Your task to perform on an android device: View the shopping cart on target. Add jbl charge 4 to the cart on target Image 0: 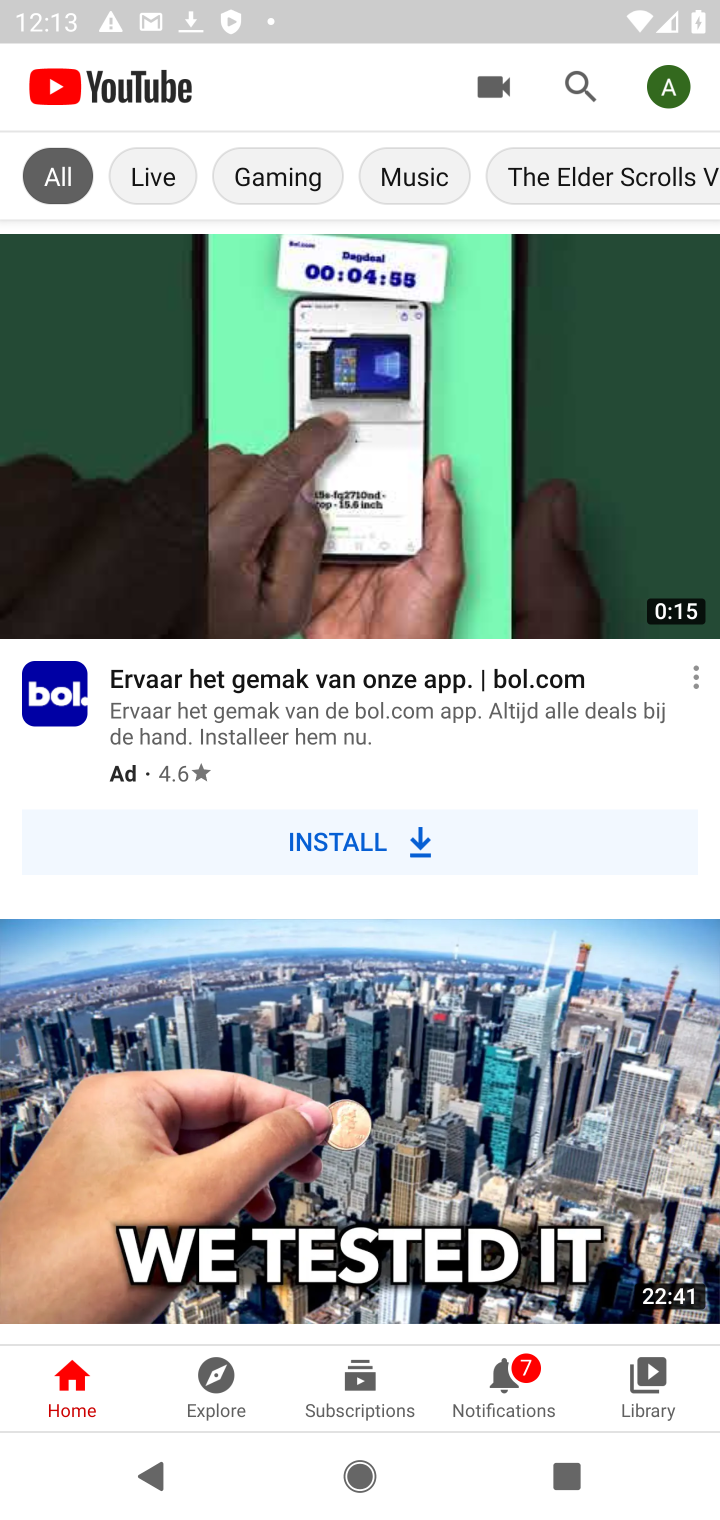
Step 0: press home button
Your task to perform on an android device: View the shopping cart on target. Add jbl charge 4 to the cart on target Image 1: 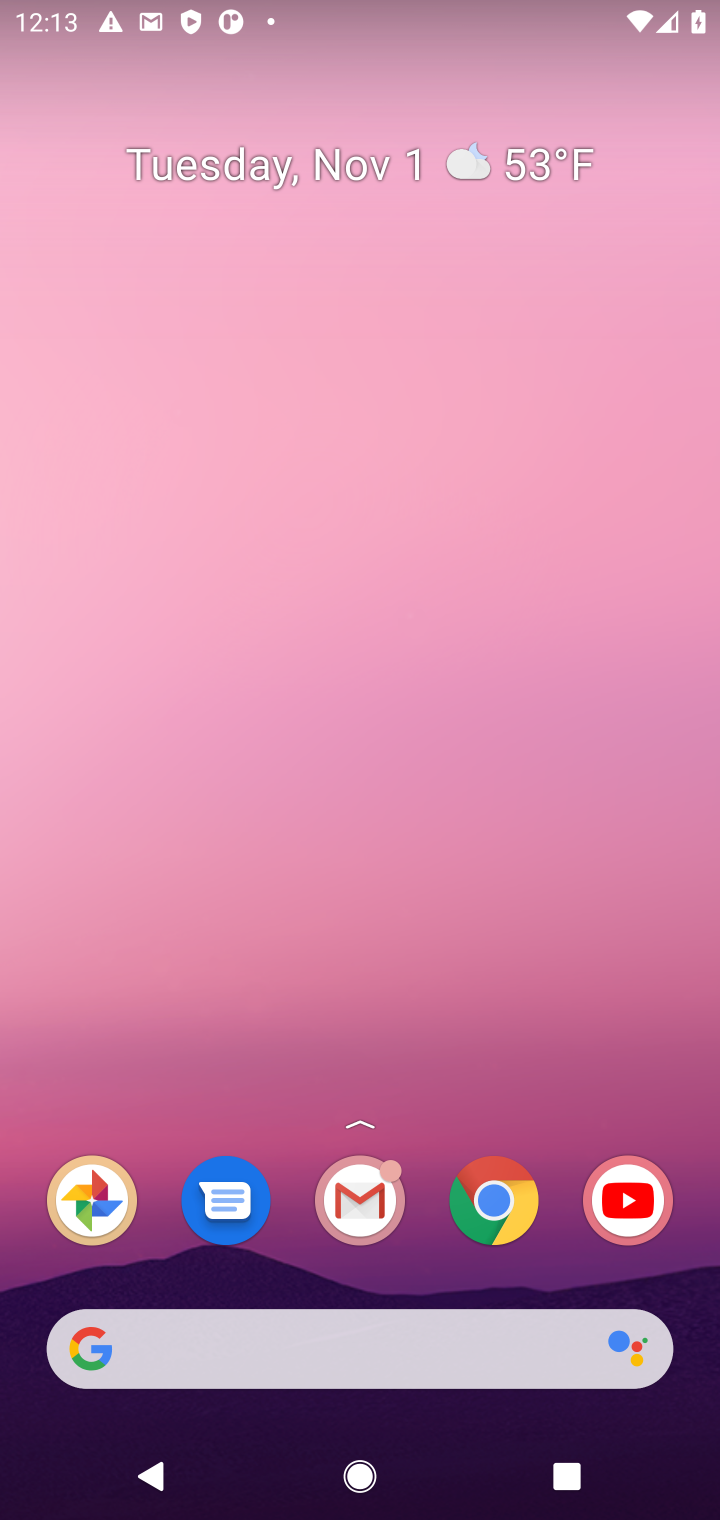
Step 1: click (486, 1195)
Your task to perform on an android device: View the shopping cart on target. Add jbl charge 4 to the cart on target Image 2: 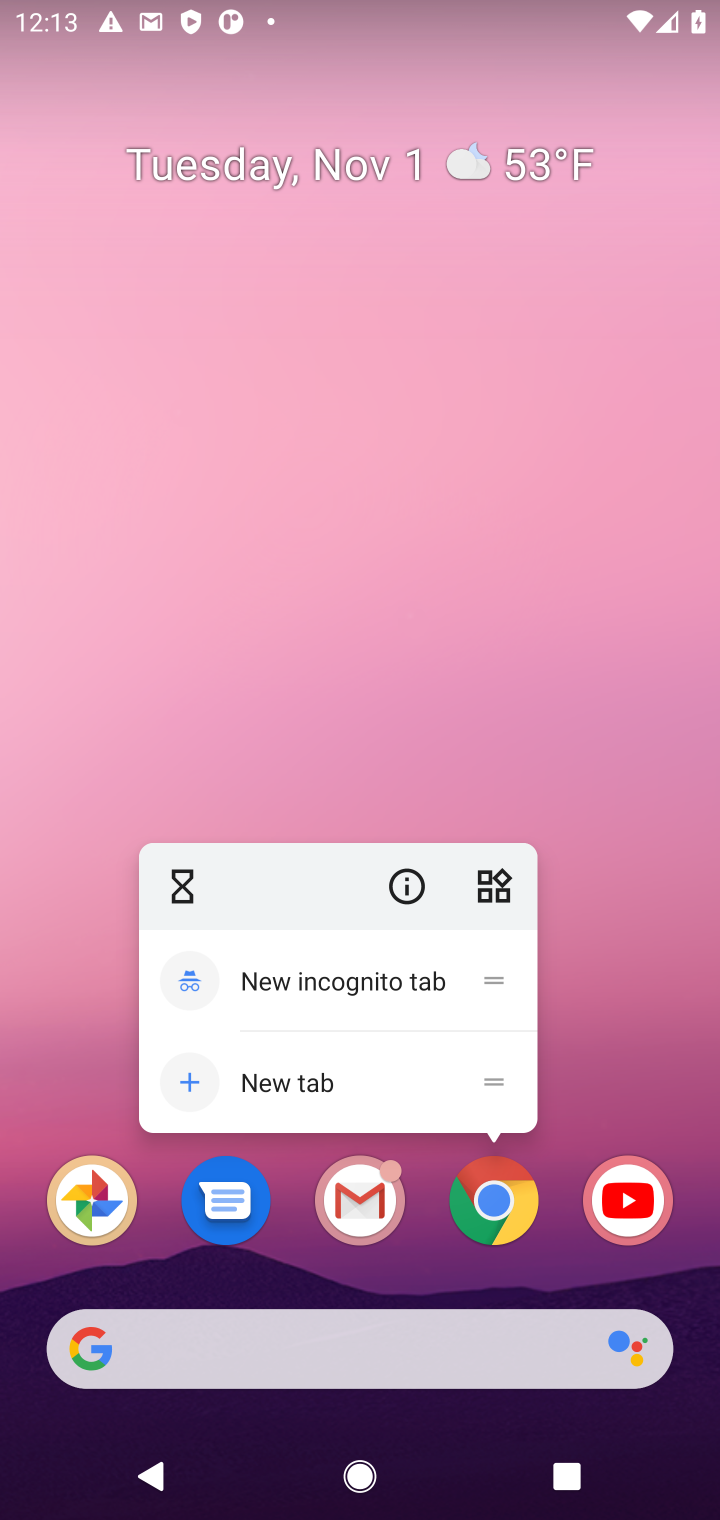
Step 2: click (498, 1238)
Your task to perform on an android device: View the shopping cart on target. Add jbl charge 4 to the cart on target Image 3: 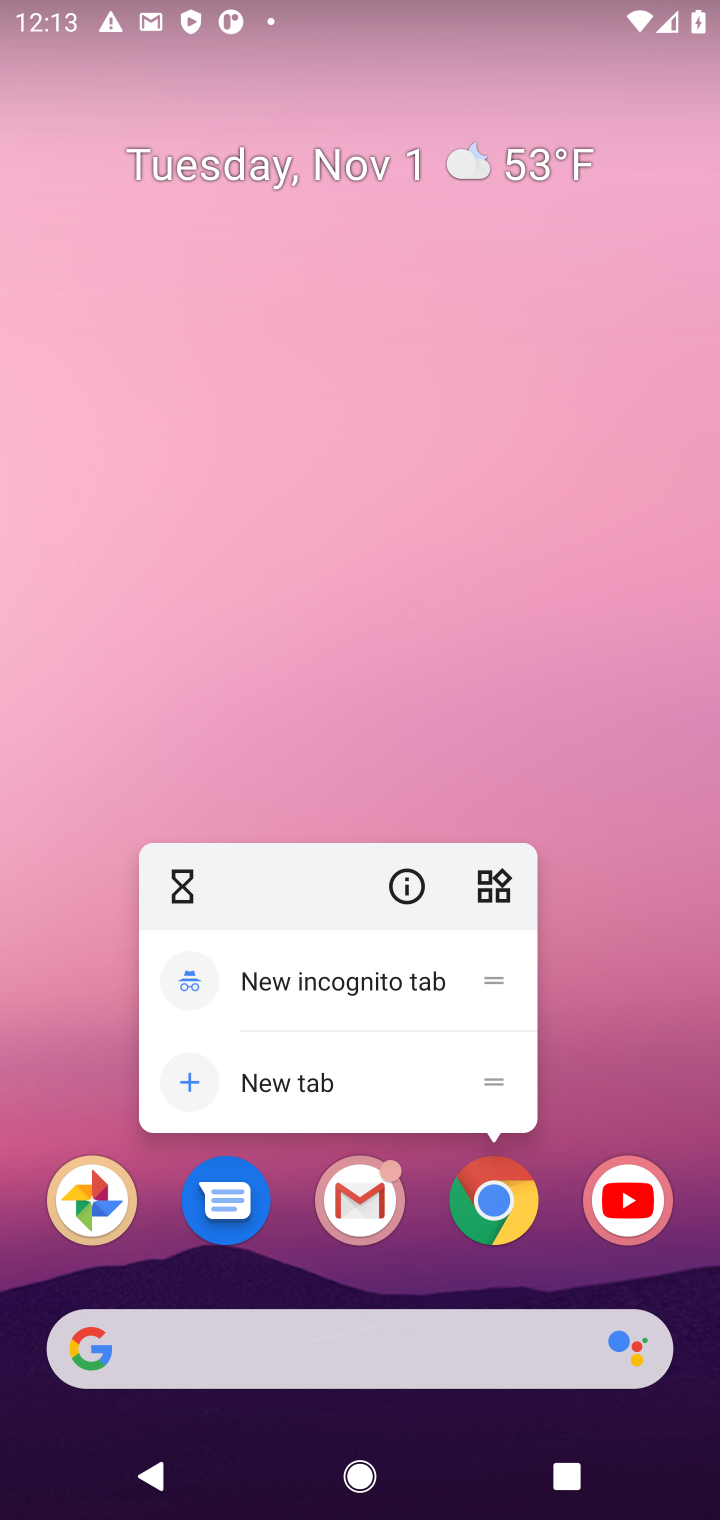
Step 3: click (490, 1200)
Your task to perform on an android device: View the shopping cart on target. Add jbl charge 4 to the cart on target Image 4: 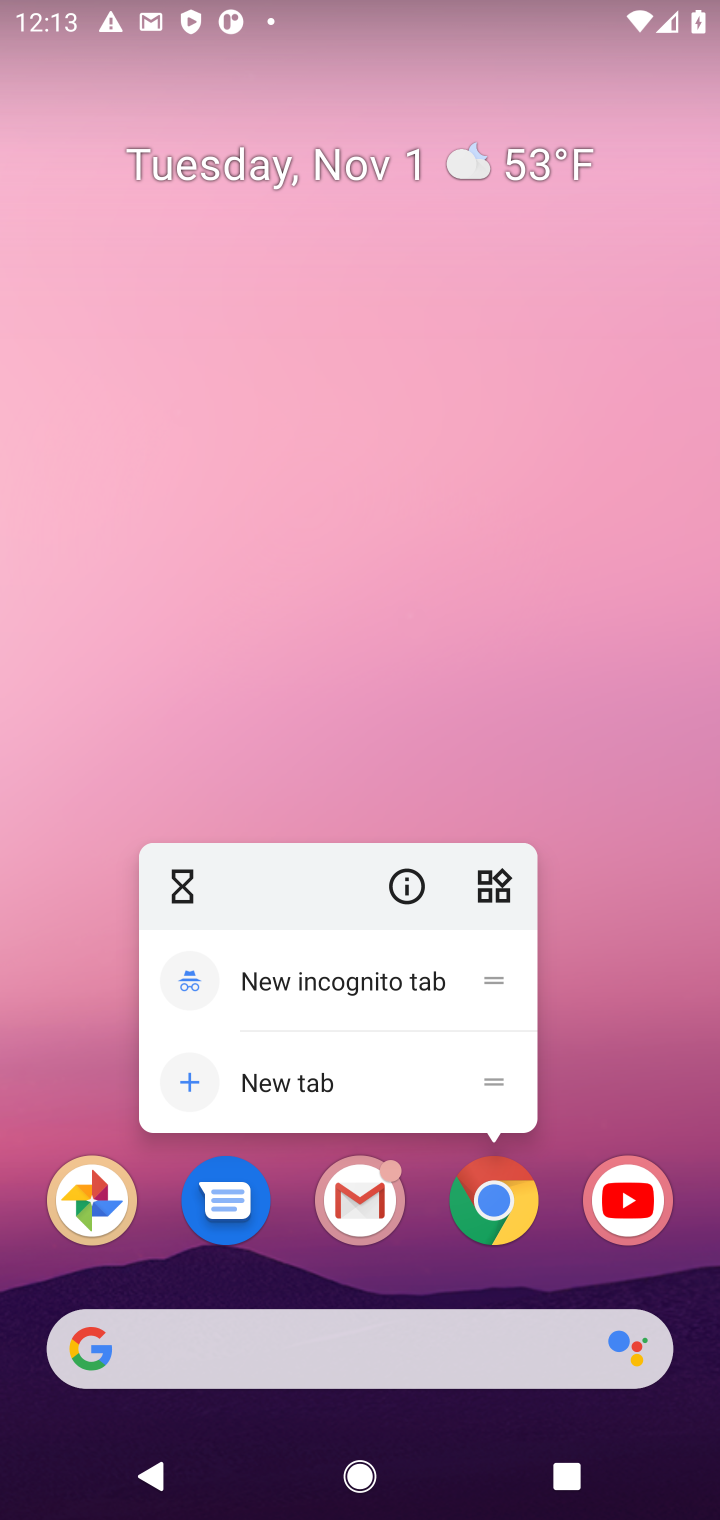
Step 4: click (486, 1231)
Your task to perform on an android device: View the shopping cart on target. Add jbl charge 4 to the cart on target Image 5: 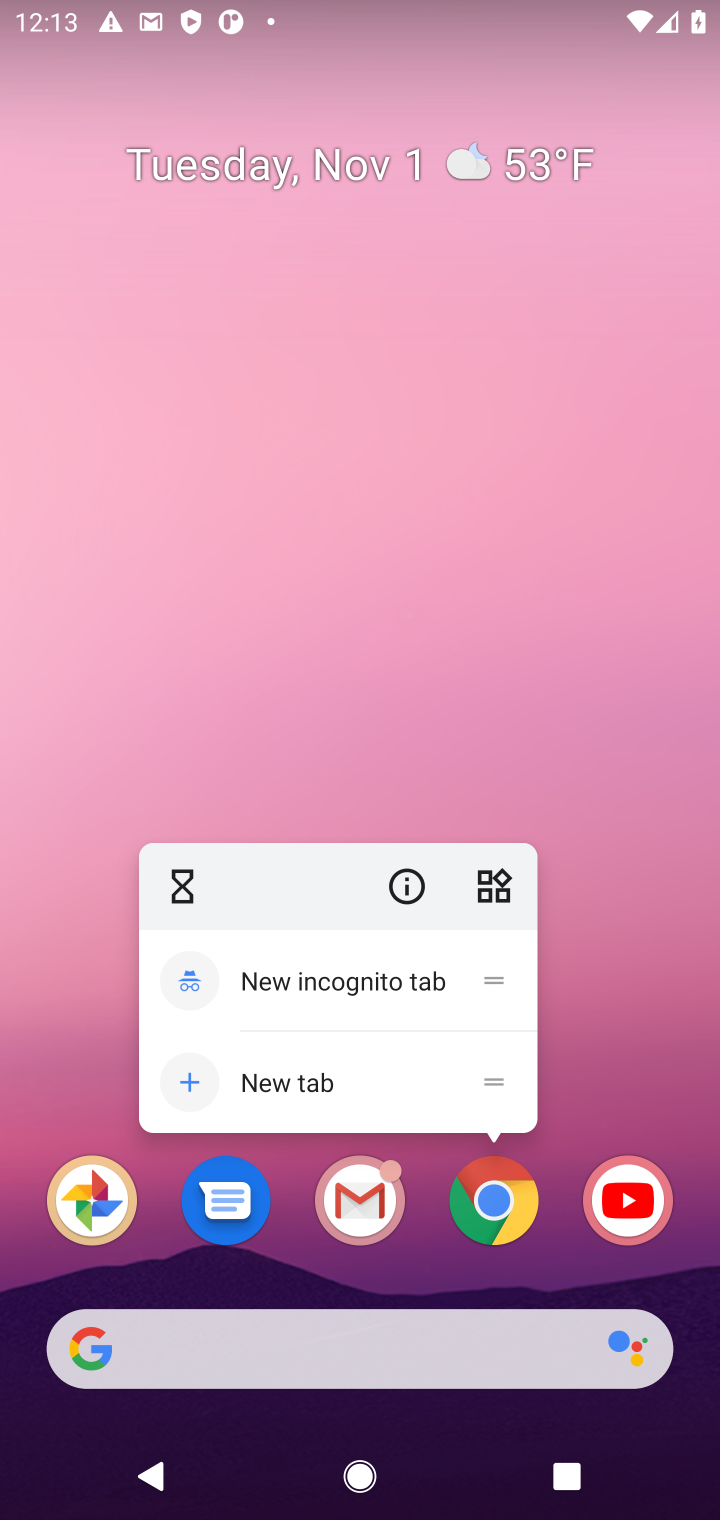
Step 5: click (486, 1231)
Your task to perform on an android device: View the shopping cart on target. Add jbl charge 4 to the cart on target Image 6: 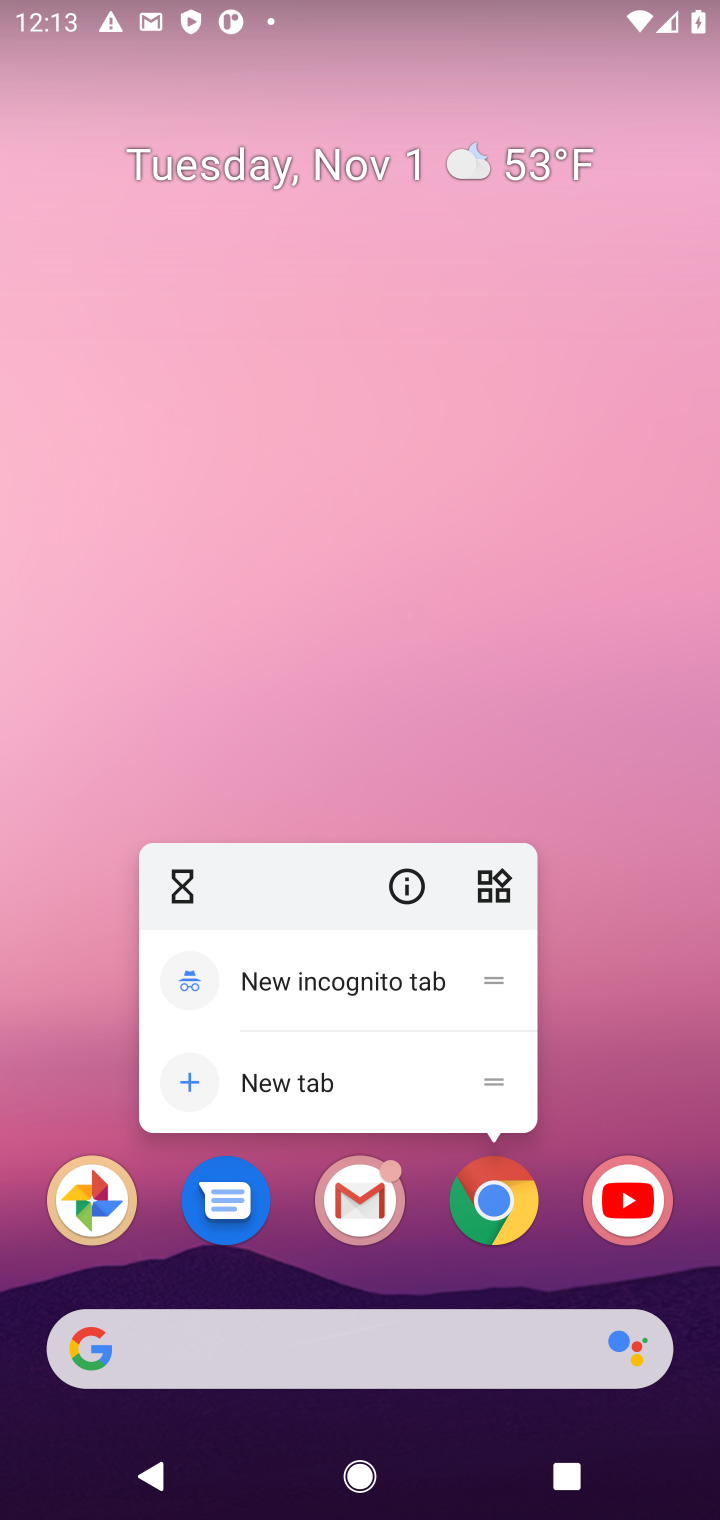
Step 6: click (450, 1199)
Your task to perform on an android device: View the shopping cart on target. Add jbl charge 4 to the cart on target Image 7: 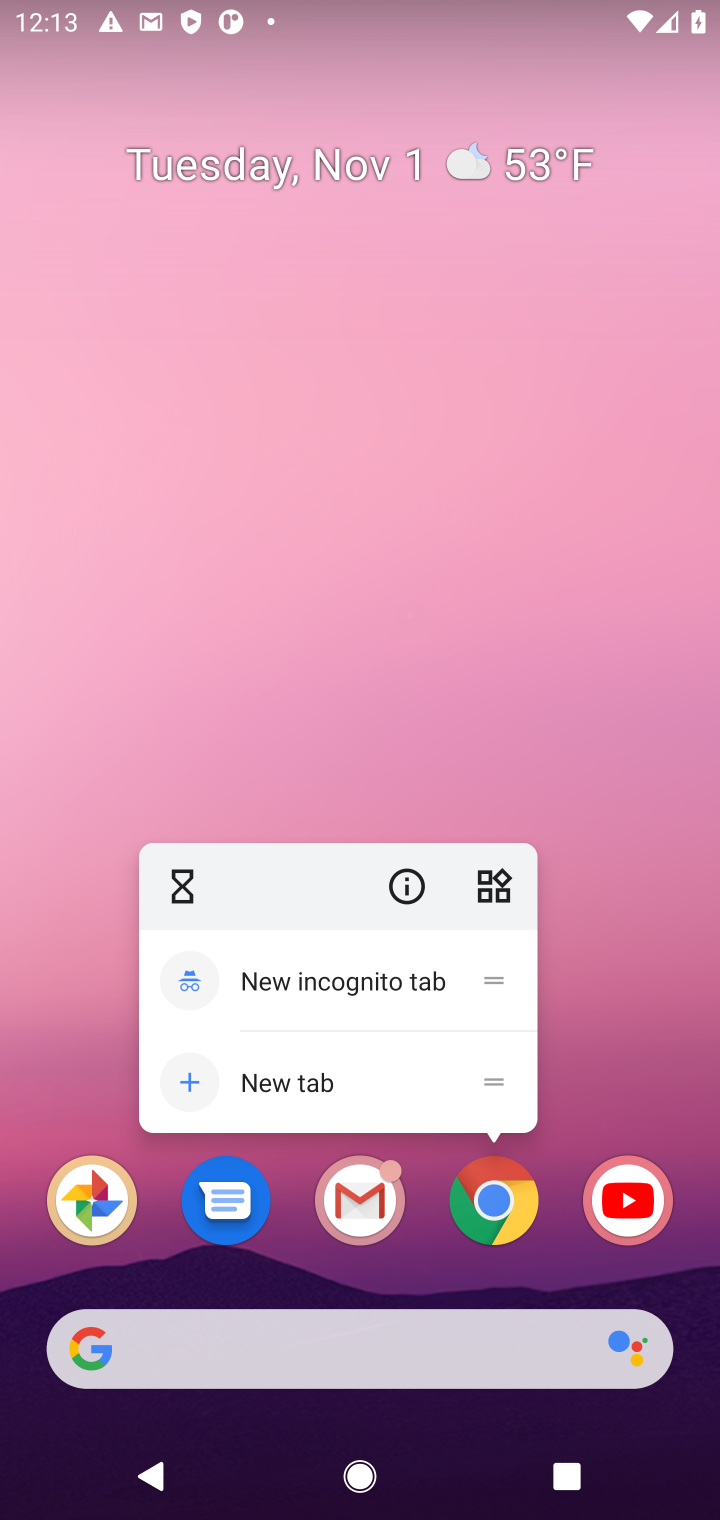
Step 7: click (501, 1197)
Your task to perform on an android device: View the shopping cart on target. Add jbl charge 4 to the cart on target Image 8: 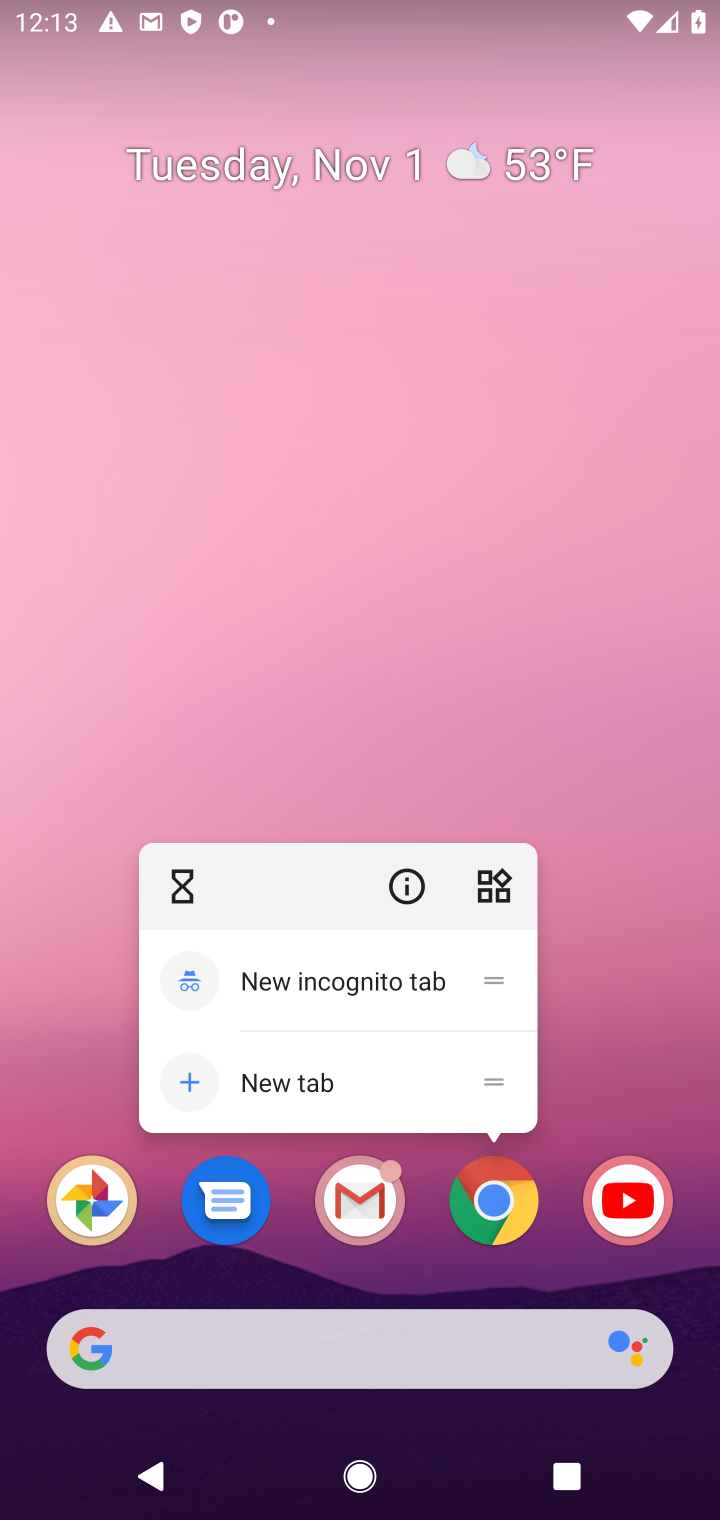
Step 8: click (493, 1217)
Your task to perform on an android device: View the shopping cart on target. Add jbl charge 4 to the cart on target Image 9: 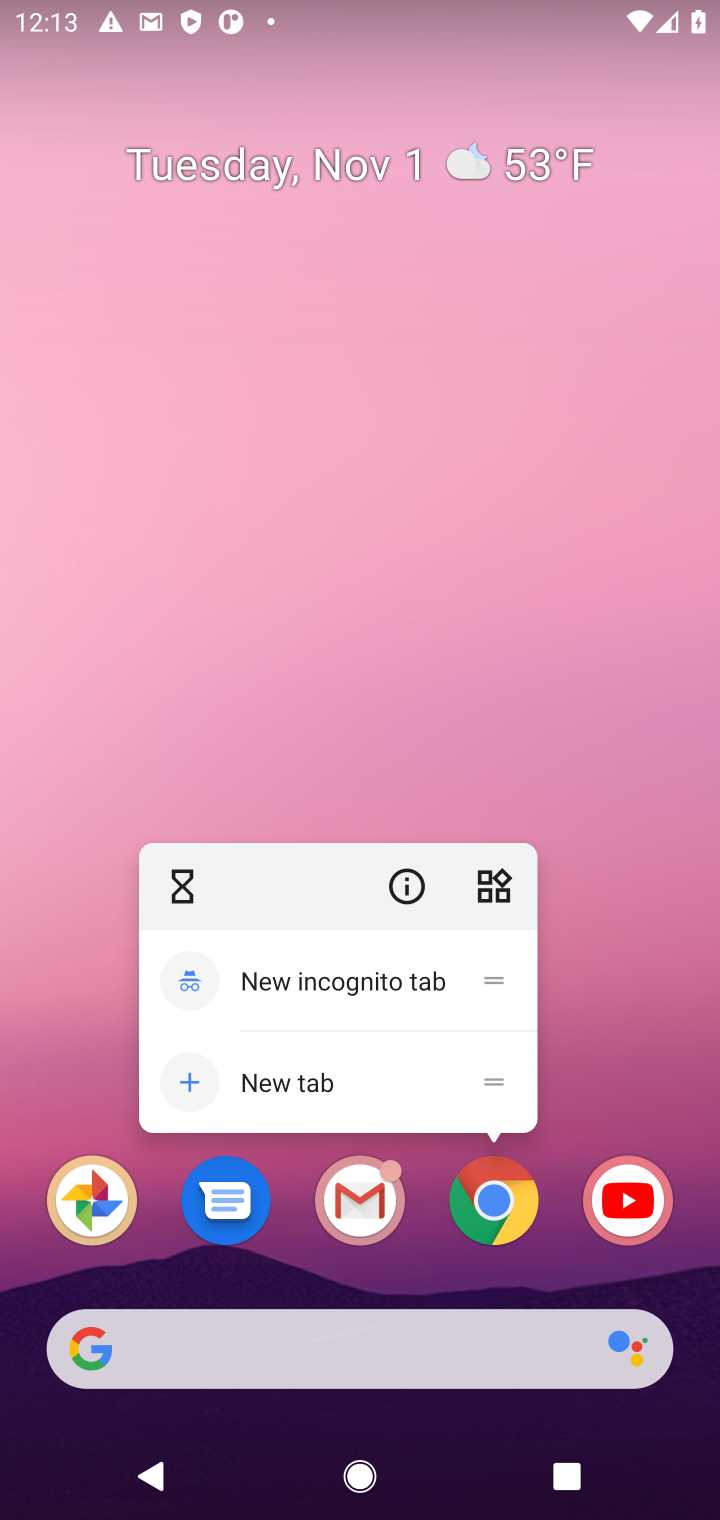
Step 9: click (483, 1245)
Your task to perform on an android device: View the shopping cart on target. Add jbl charge 4 to the cart on target Image 10: 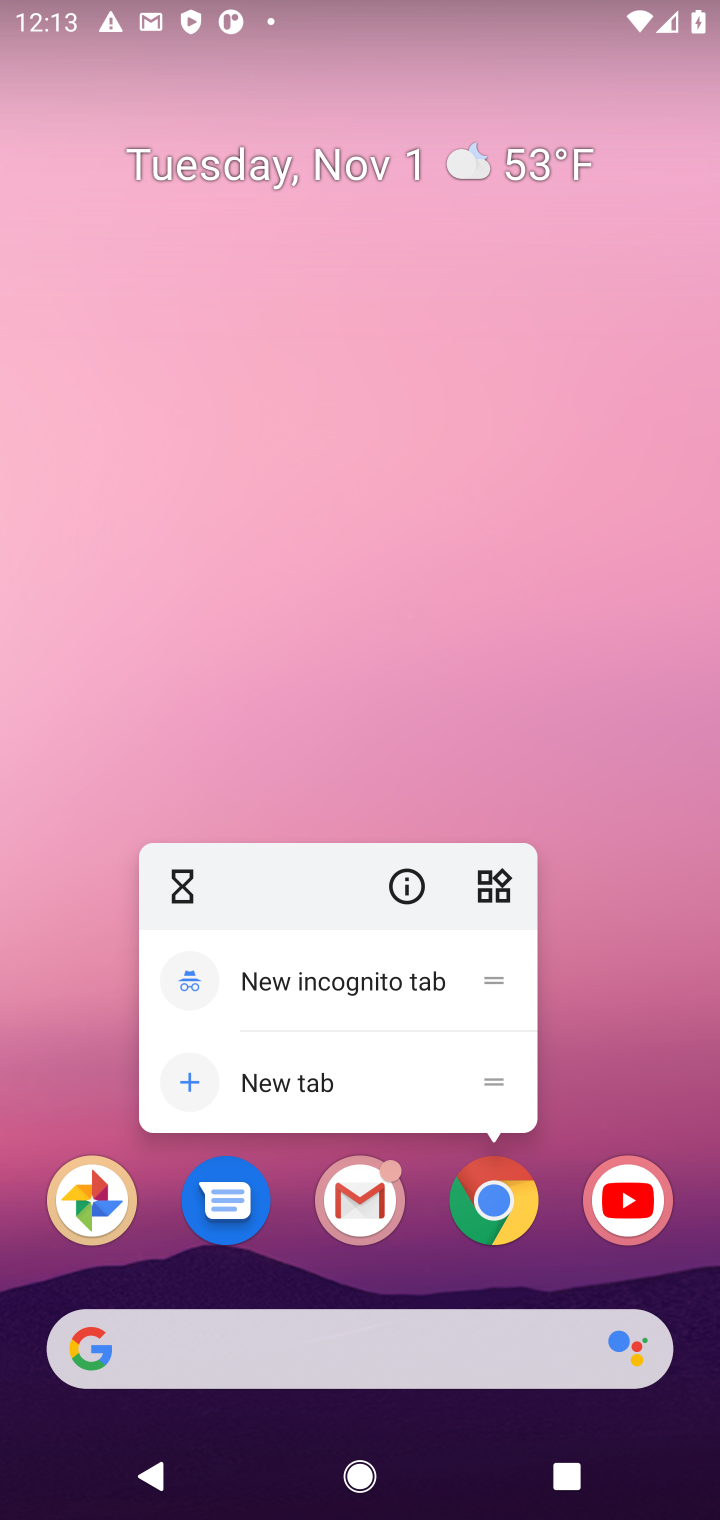
Step 10: click (499, 1236)
Your task to perform on an android device: View the shopping cart on target. Add jbl charge 4 to the cart on target Image 11: 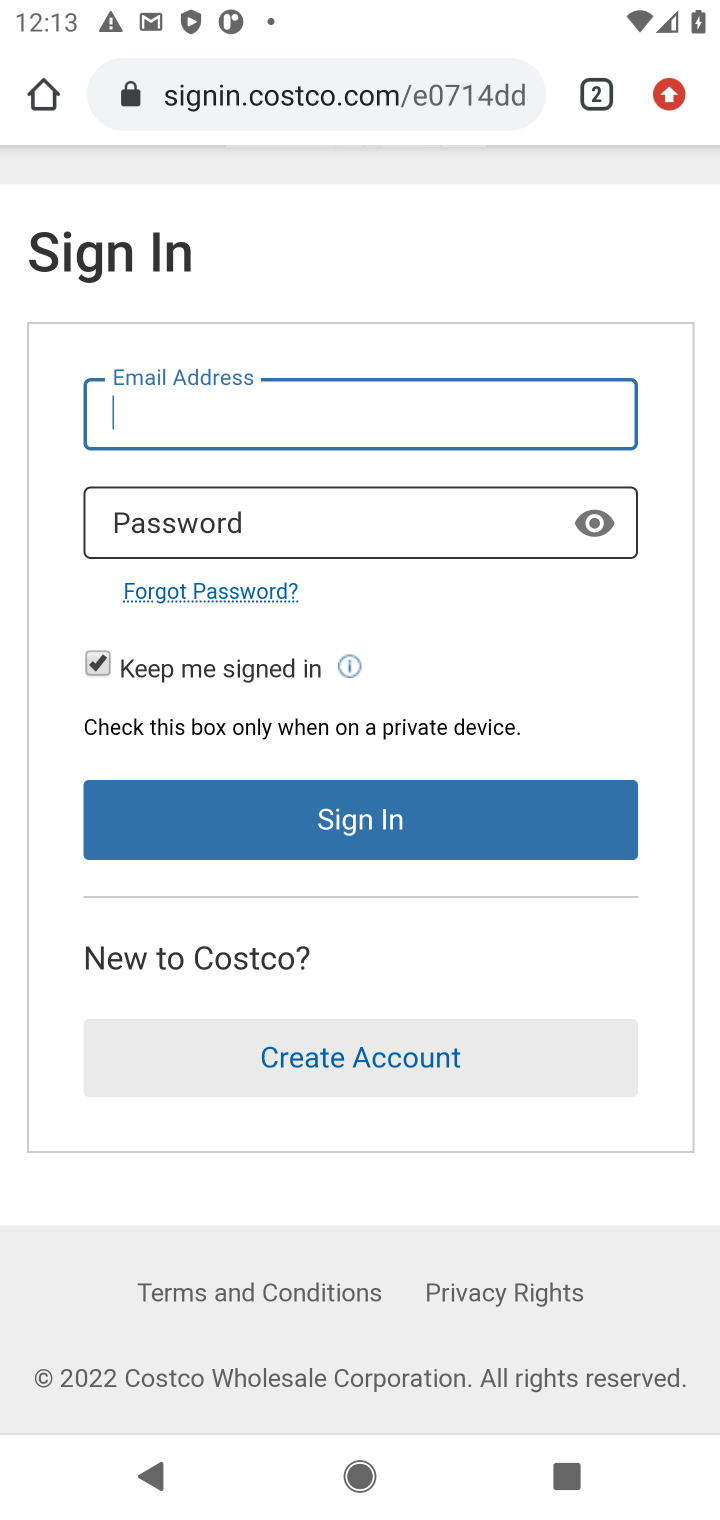
Step 11: click (398, 93)
Your task to perform on an android device: View the shopping cart on target. Add jbl charge 4 to the cart on target Image 12: 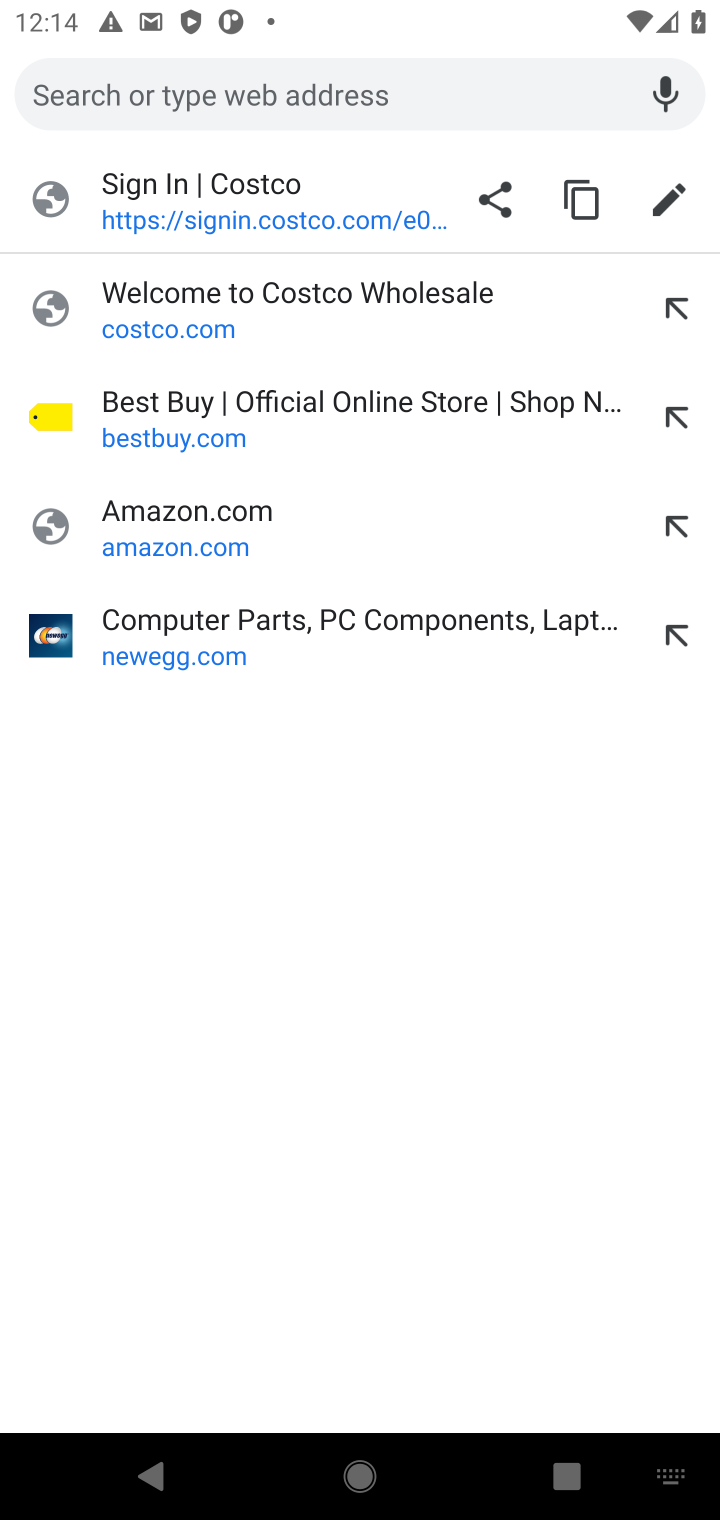
Step 12: type " target"
Your task to perform on an android device: View the shopping cart on target. Add jbl charge 4 to the cart on target Image 13: 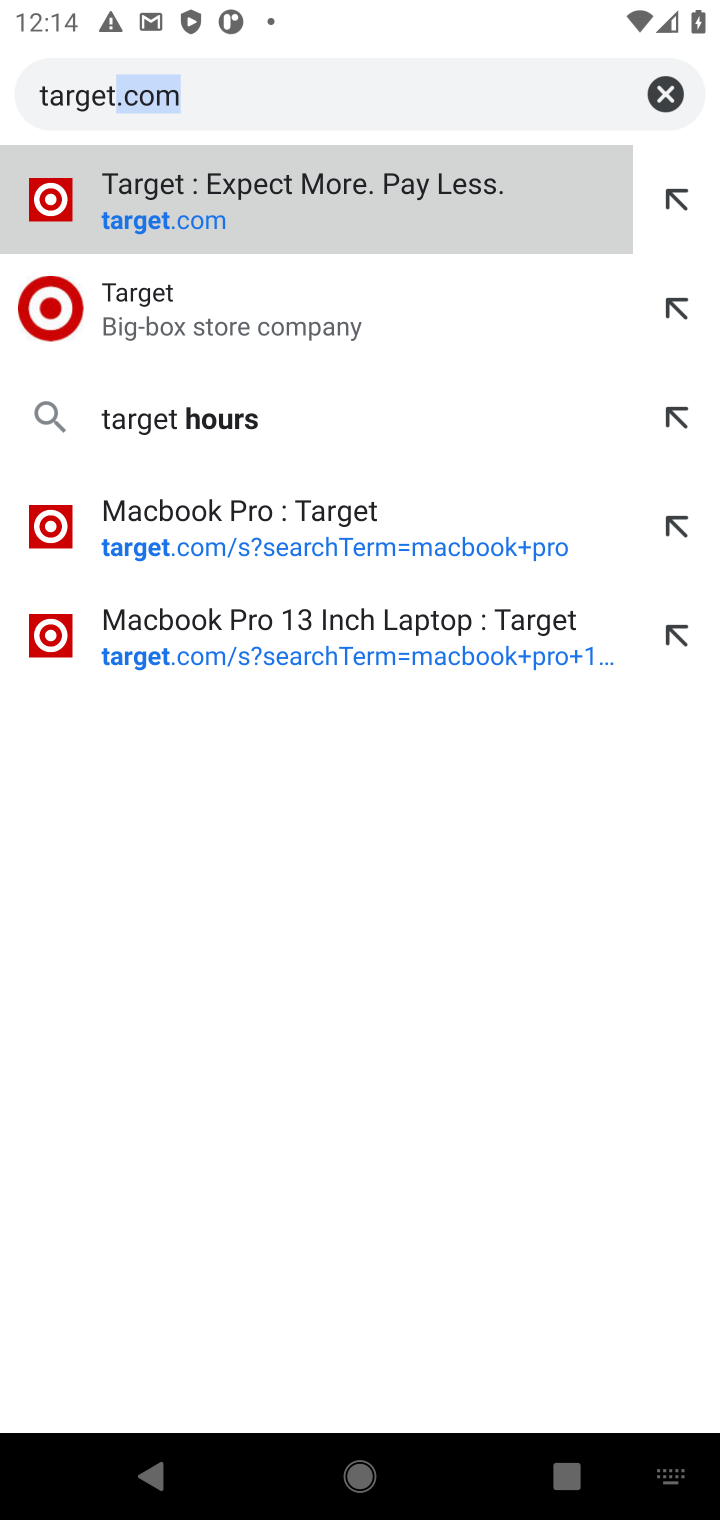
Step 13: type ""
Your task to perform on an android device: View the shopping cart on target. Add jbl charge 4 to the cart on target Image 14: 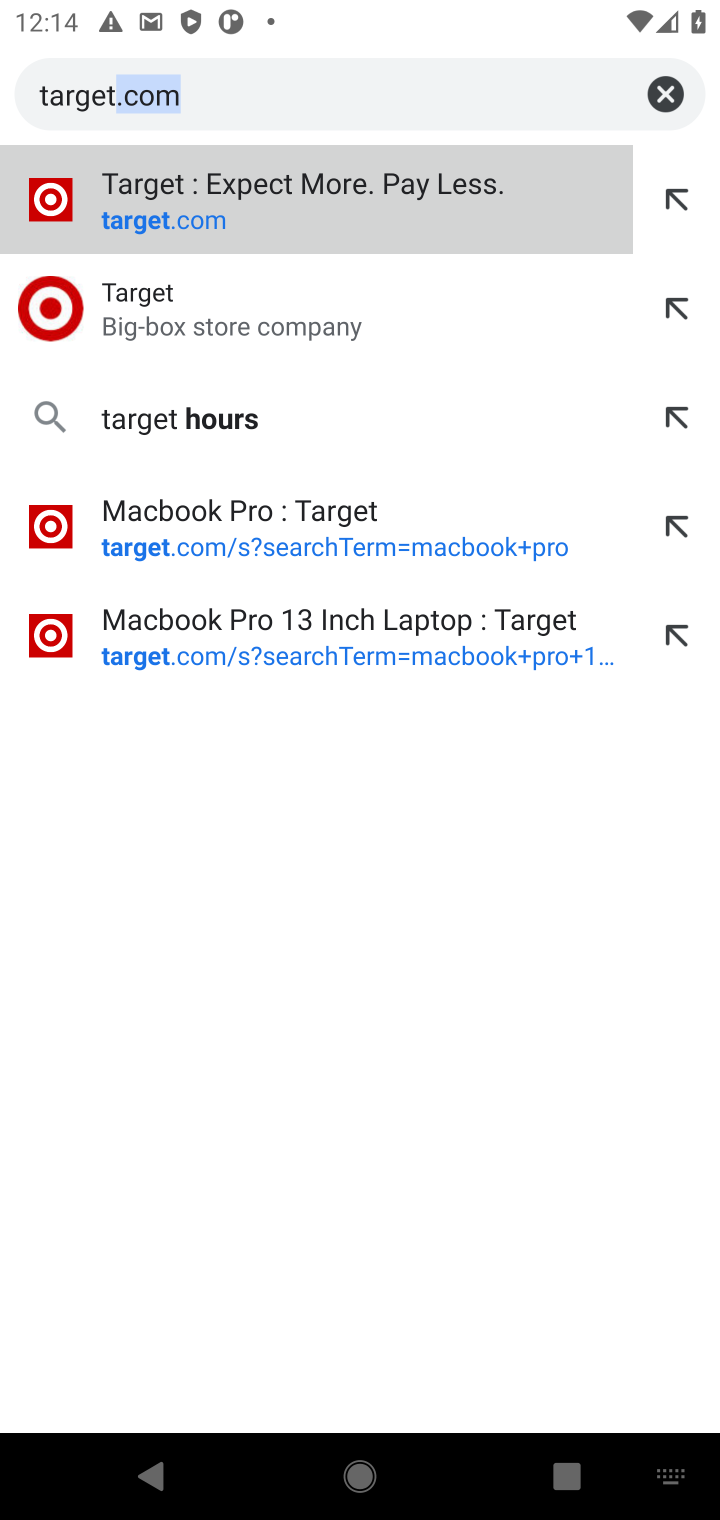
Step 14: click (427, 203)
Your task to perform on an android device: View the shopping cart on target. Add jbl charge 4 to the cart on target Image 15: 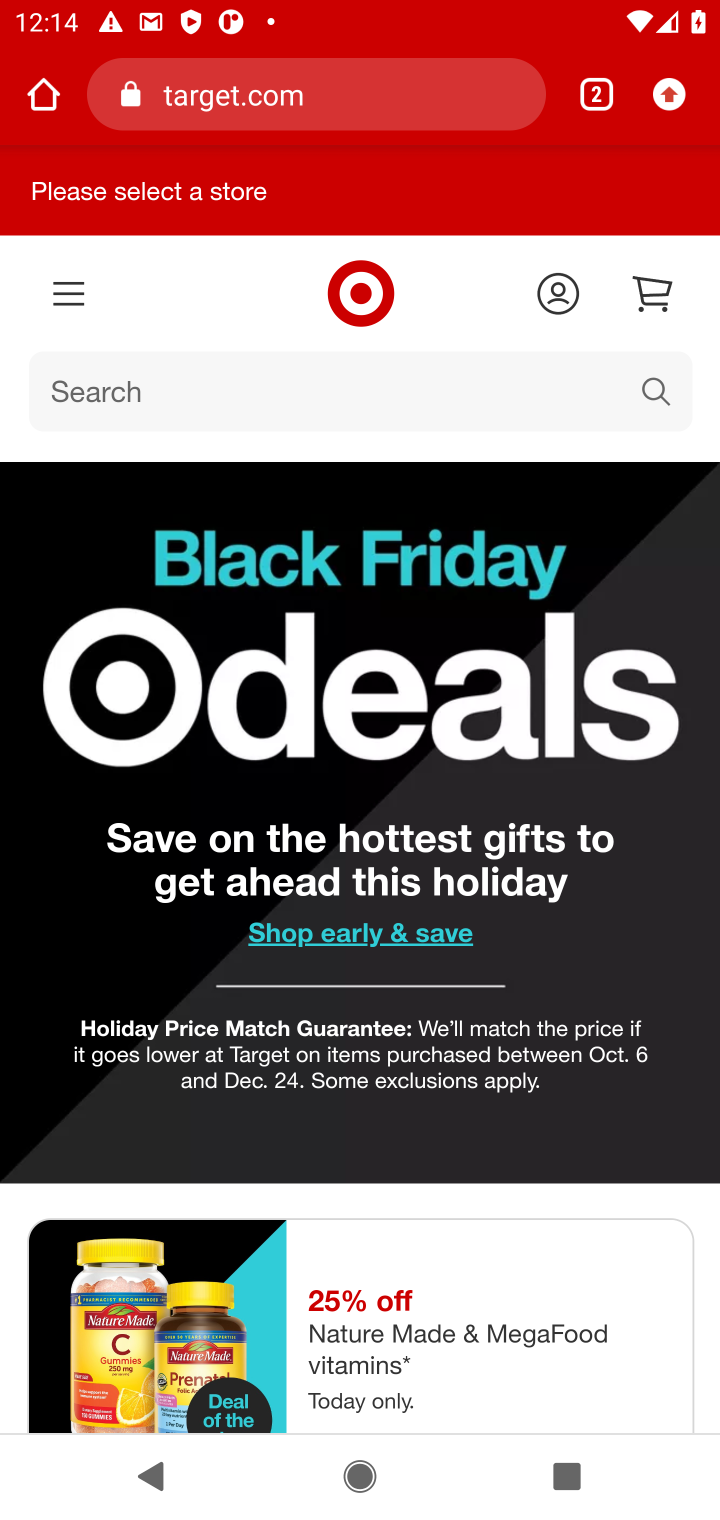
Step 15: click (449, 349)
Your task to perform on an android device: View the shopping cart on target. Add jbl charge 4 to the cart on target Image 16: 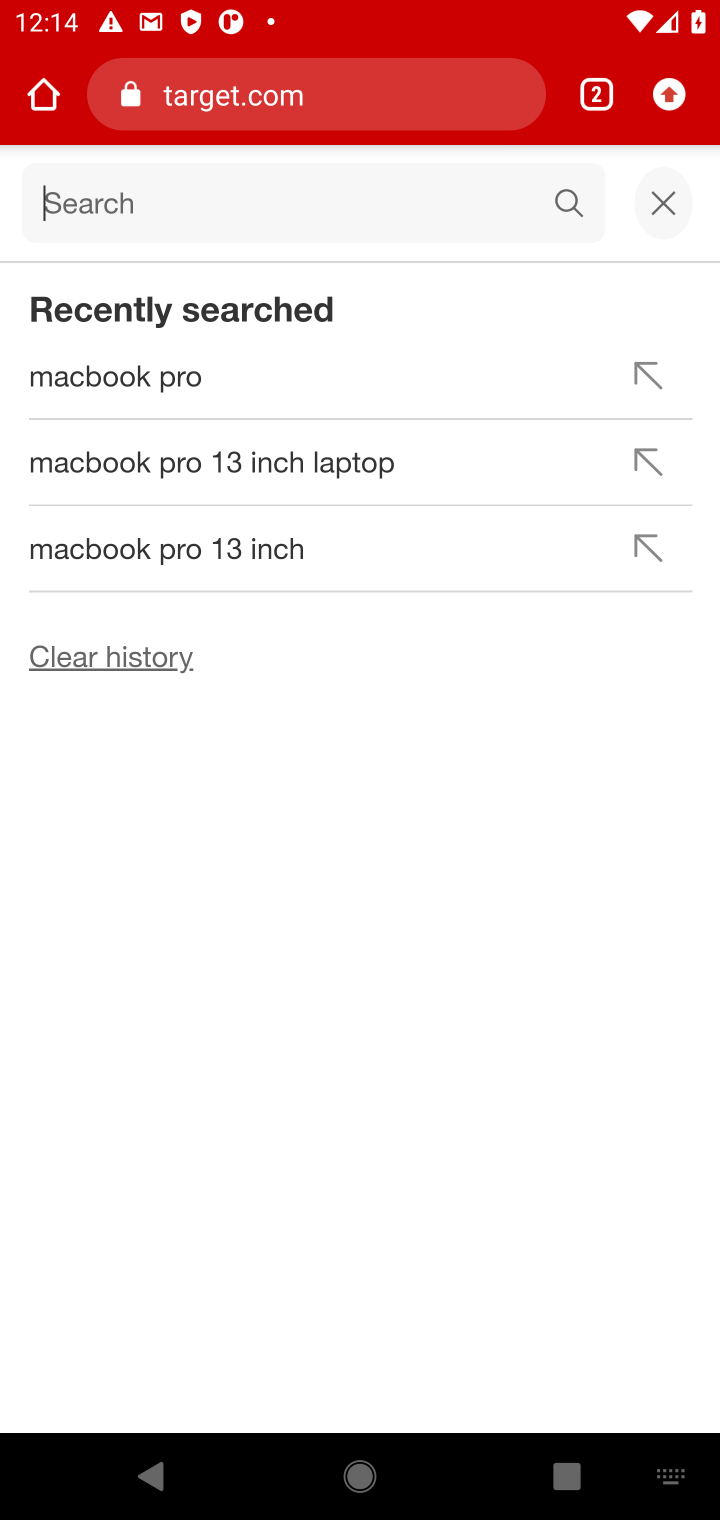
Step 16: type "jbl charge 4"
Your task to perform on an android device: View the shopping cart on target. Add jbl charge 4 to the cart on target Image 17: 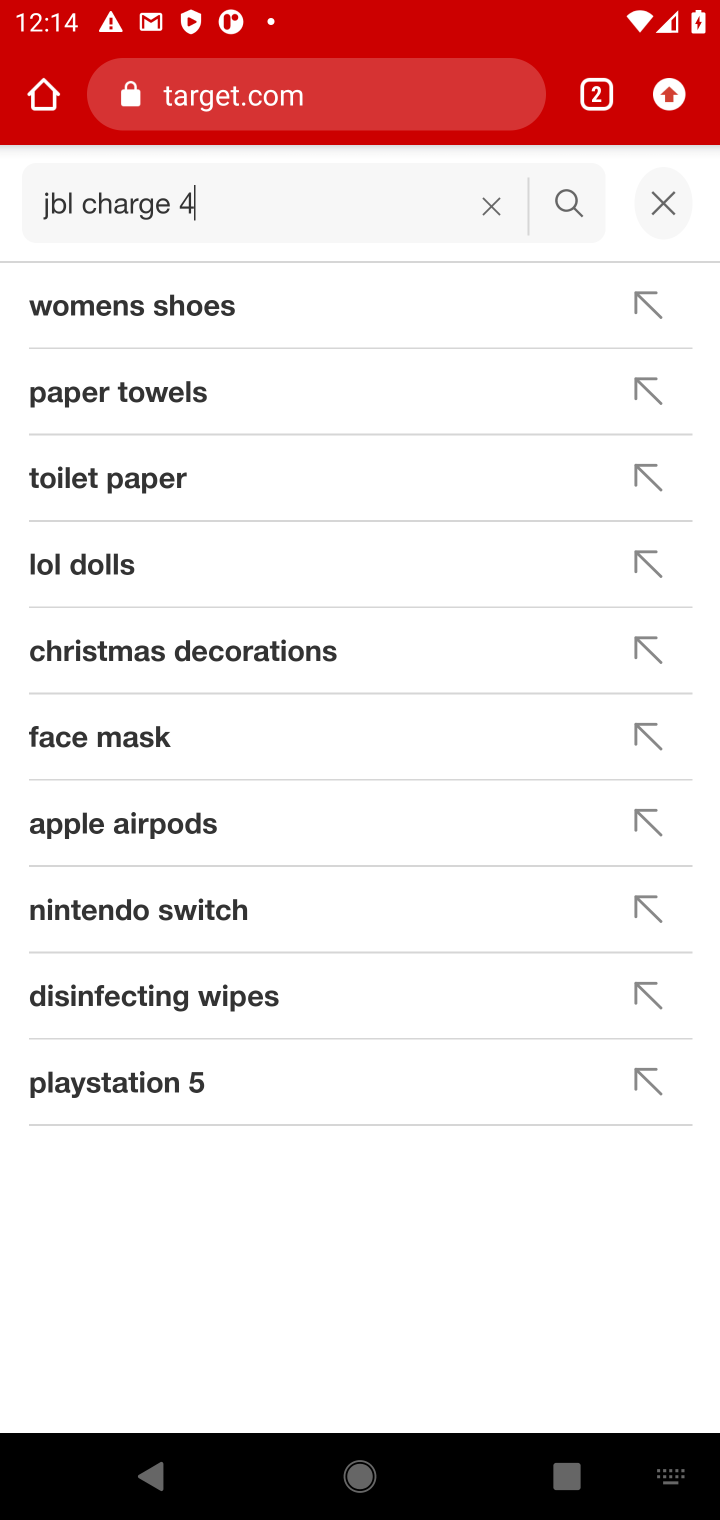
Step 17: type ""
Your task to perform on an android device: View the shopping cart on target. Add jbl charge 4 to the cart on target Image 18: 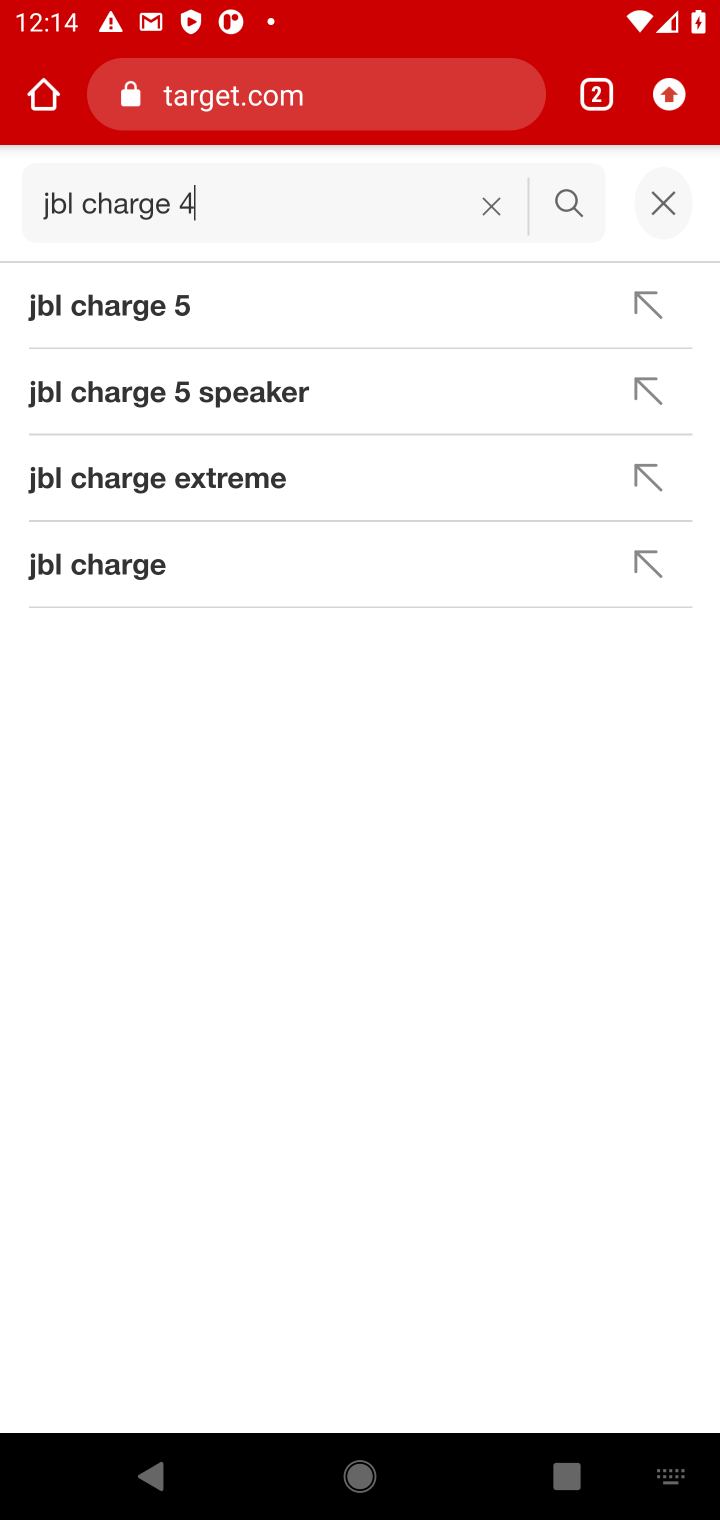
Step 18: press enter
Your task to perform on an android device: View the shopping cart on target. Add jbl charge 4 to the cart on target Image 19: 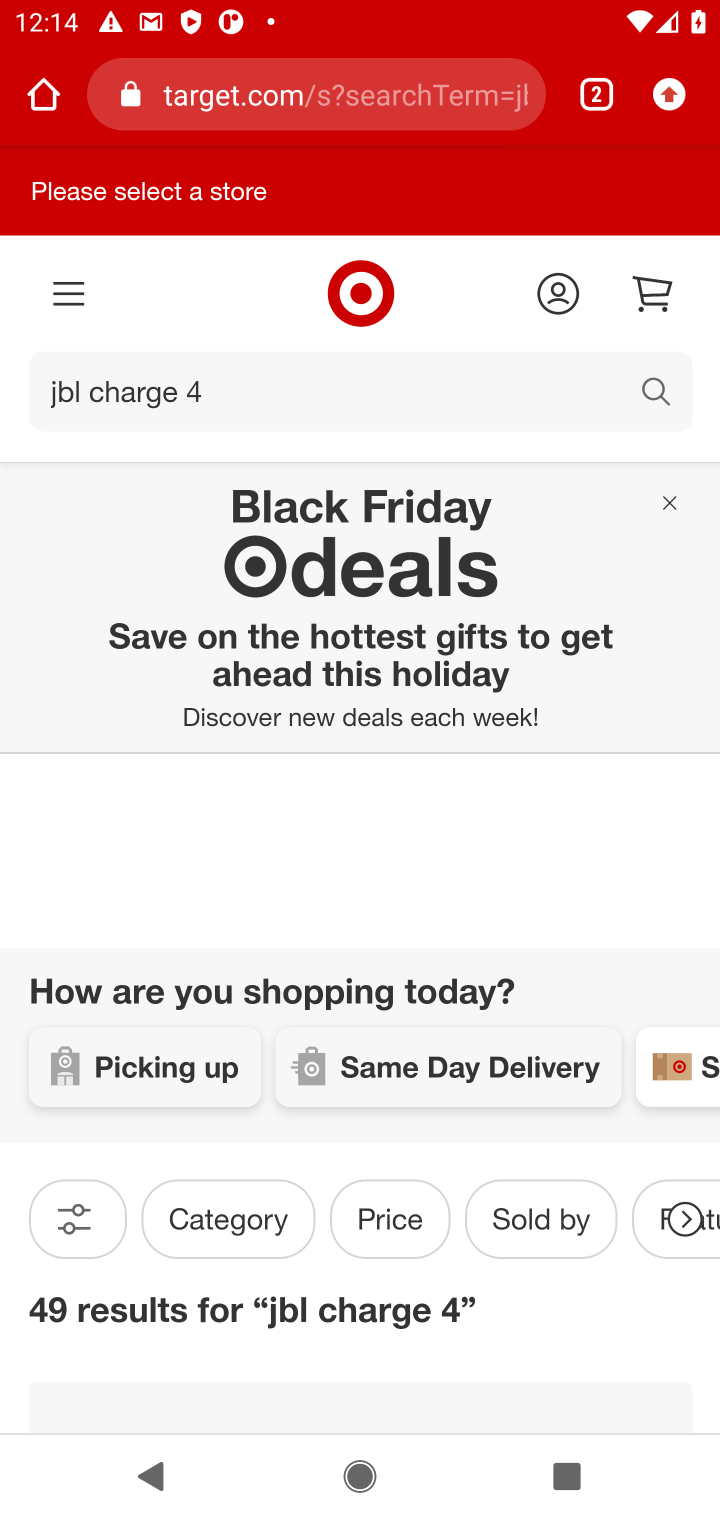
Step 19: click (263, 434)
Your task to perform on an android device: View the shopping cart on target. Add jbl charge 4 to the cart on target Image 20: 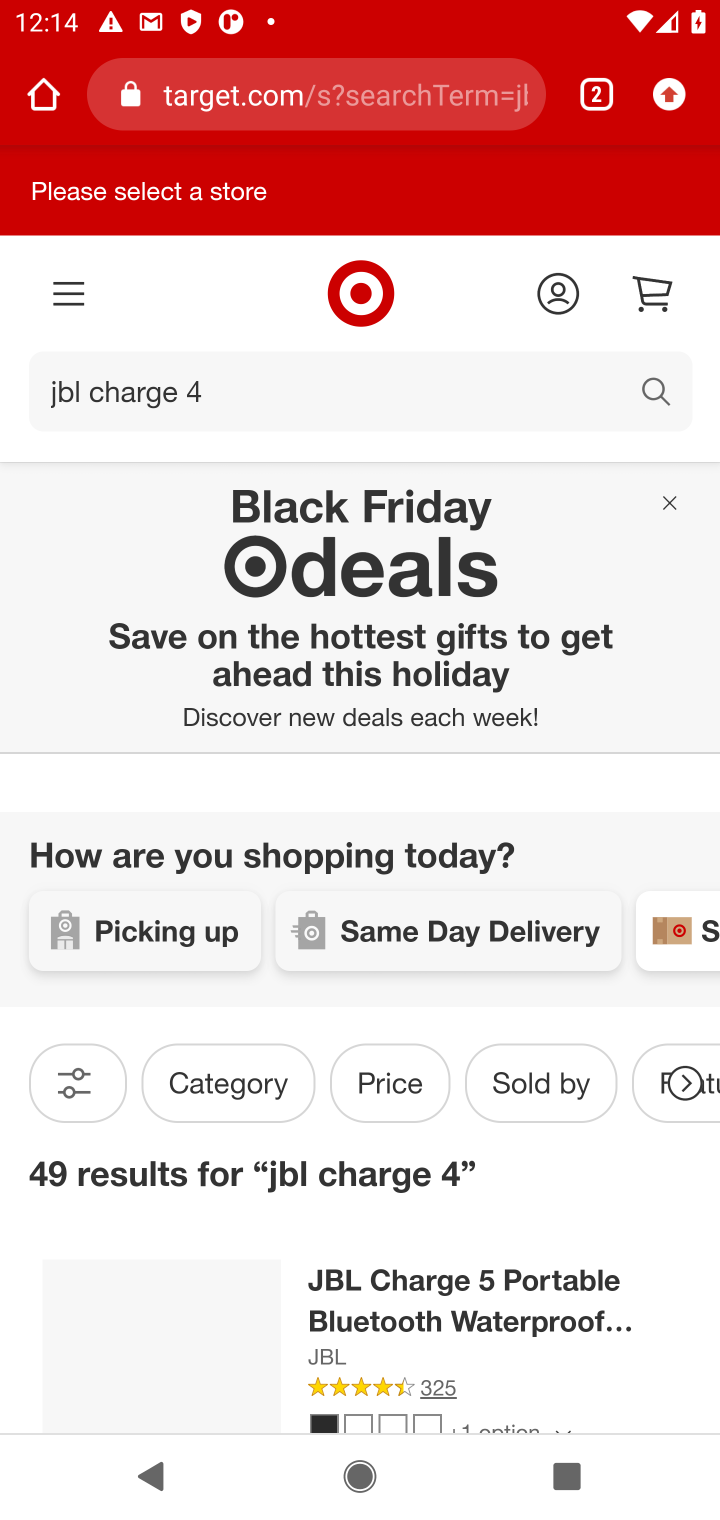
Step 20: drag from (303, 1143) to (356, 614)
Your task to perform on an android device: View the shopping cart on target. Add jbl charge 4 to the cart on target Image 21: 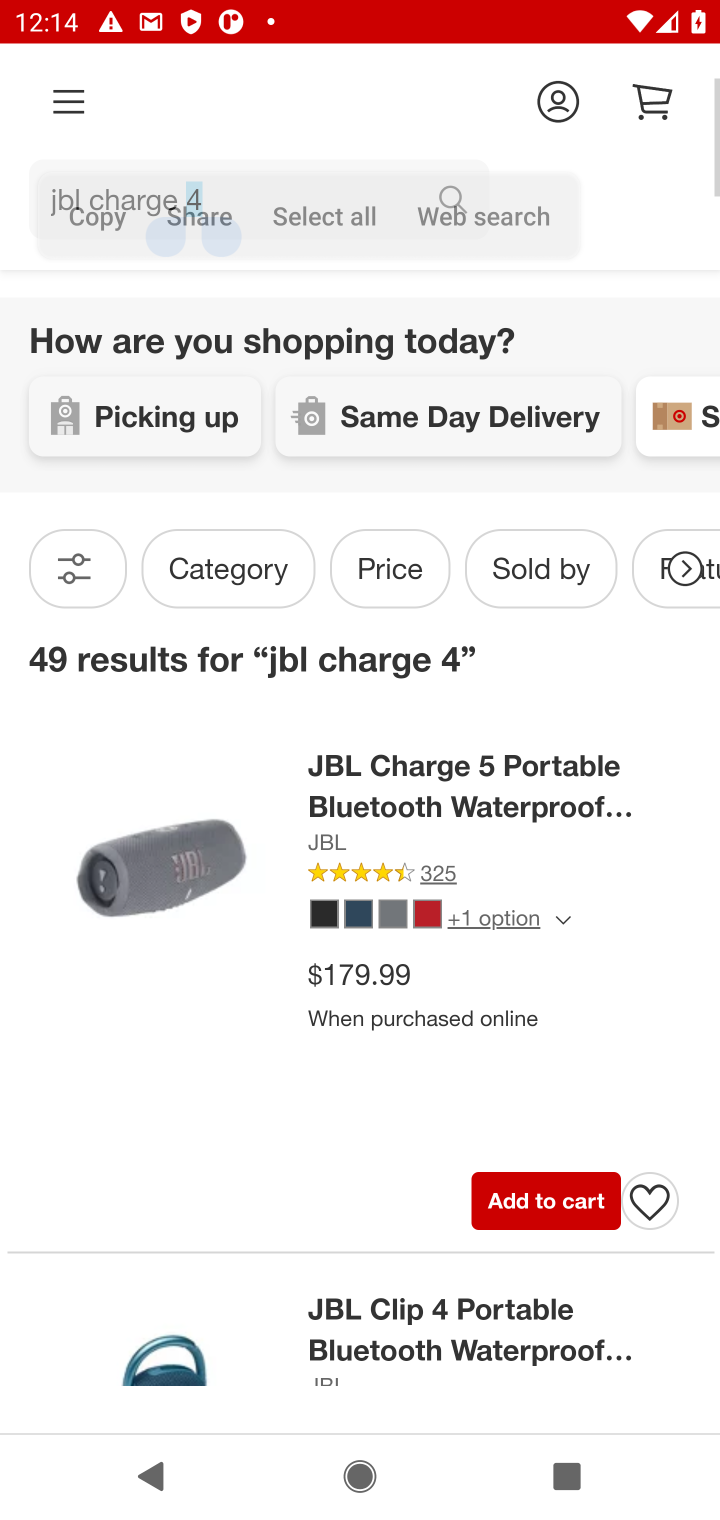
Step 21: drag from (535, 1134) to (520, 699)
Your task to perform on an android device: View the shopping cart on target. Add jbl charge 4 to the cart on target Image 22: 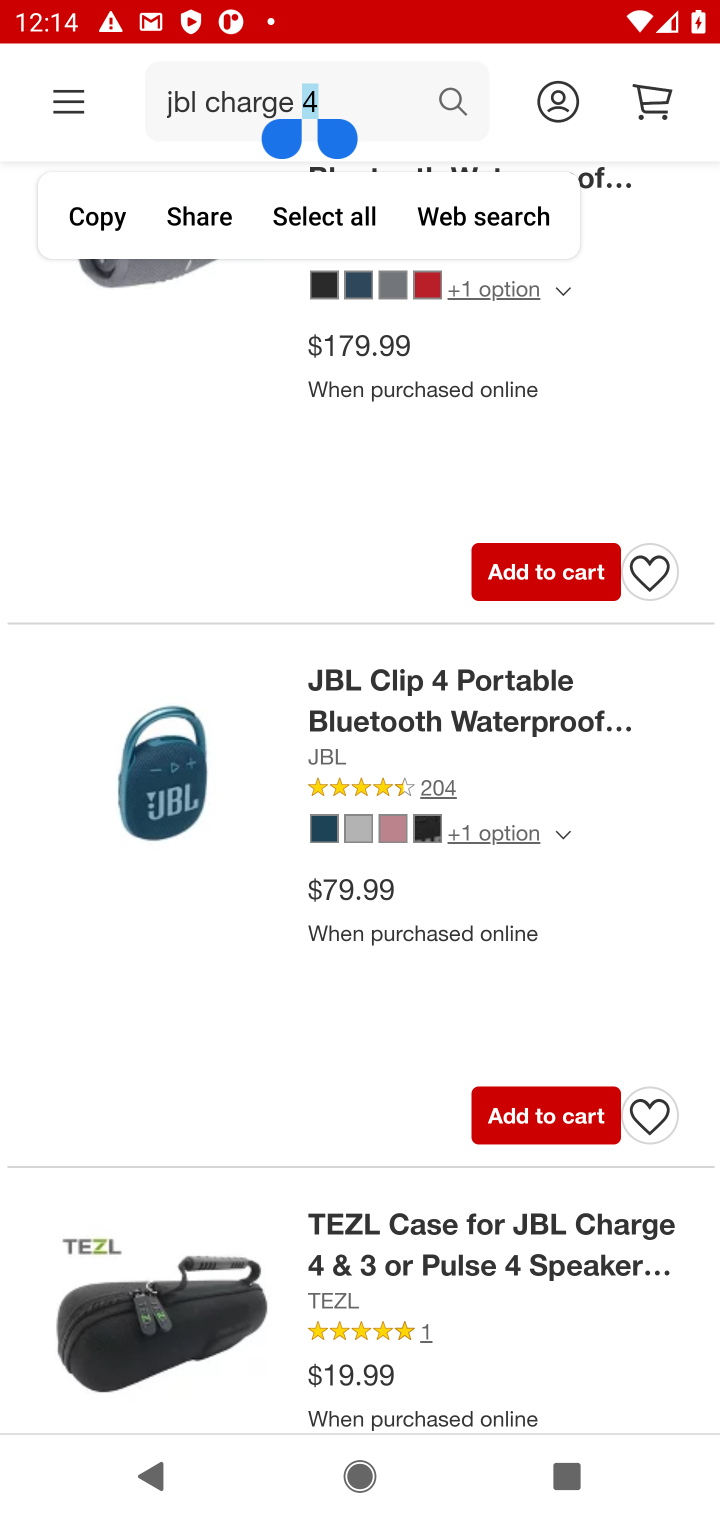
Step 22: drag from (440, 1013) to (418, 659)
Your task to perform on an android device: View the shopping cart on target. Add jbl charge 4 to the cart on target Image 23: 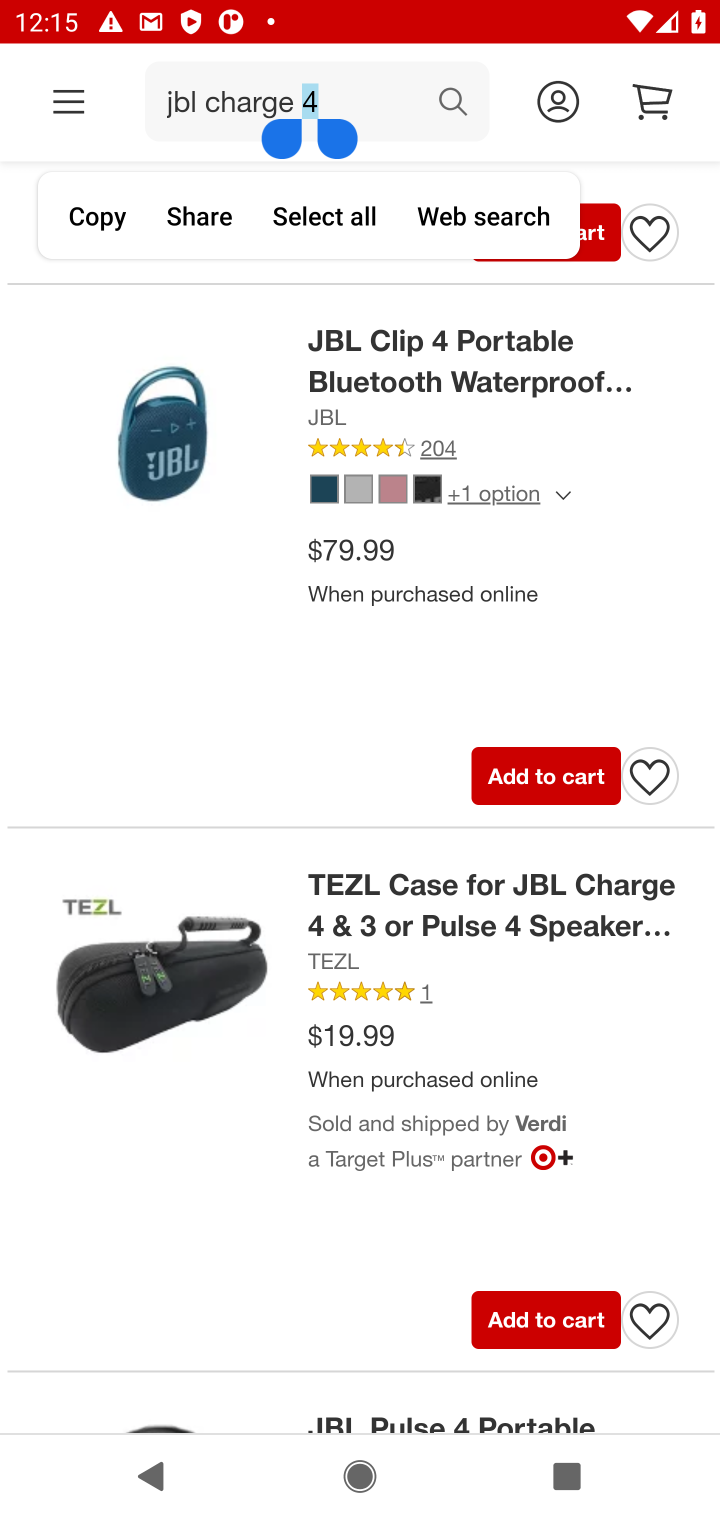
Step 23: drag from (423, 1155) to (441, 633)
Your task to perform on an android device: View the shopping cart on target. Add jbl charge 4 to the cart on target Image 24: 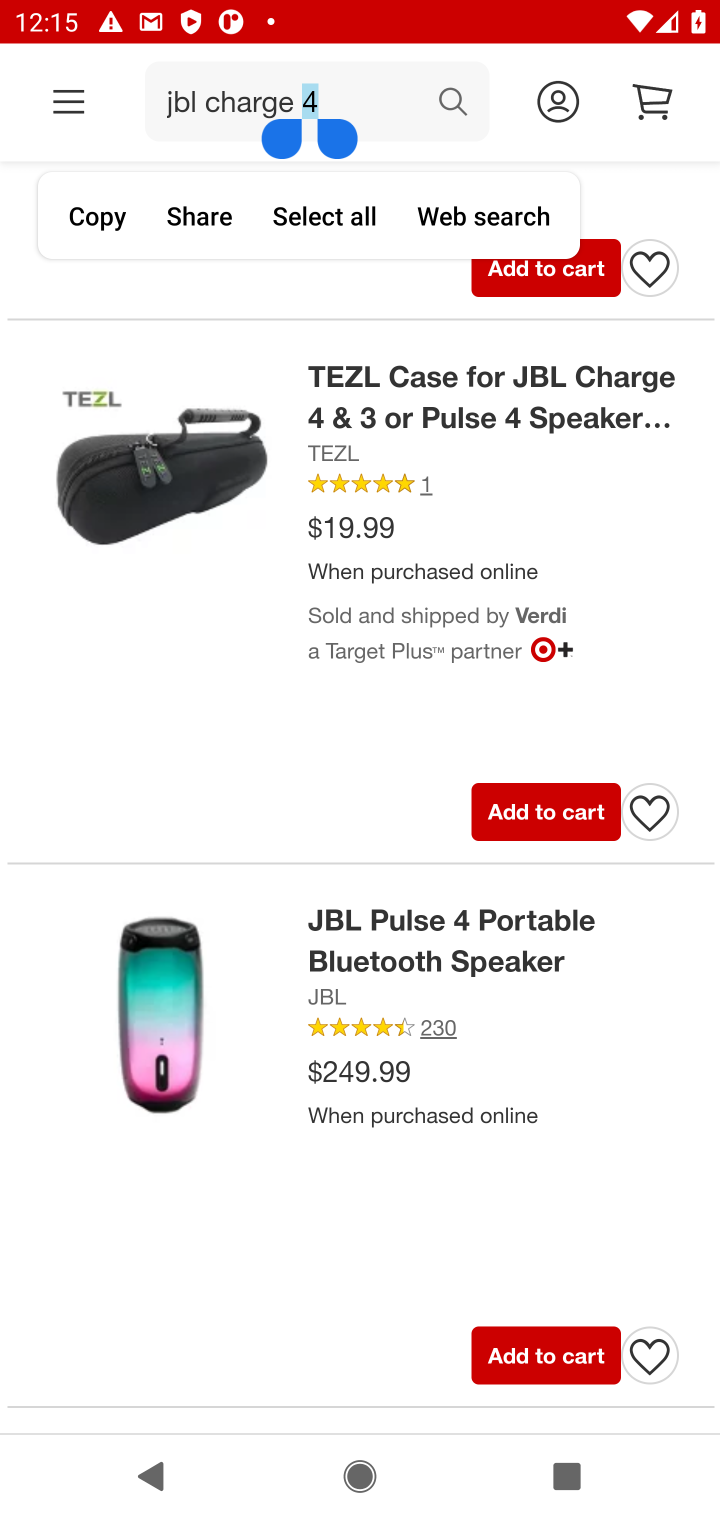
Step 24: click (380, 1209)
Your task to perform on an android device: View the shopping cart on target. Add jbl charge 4 to the cart on target Image 25: 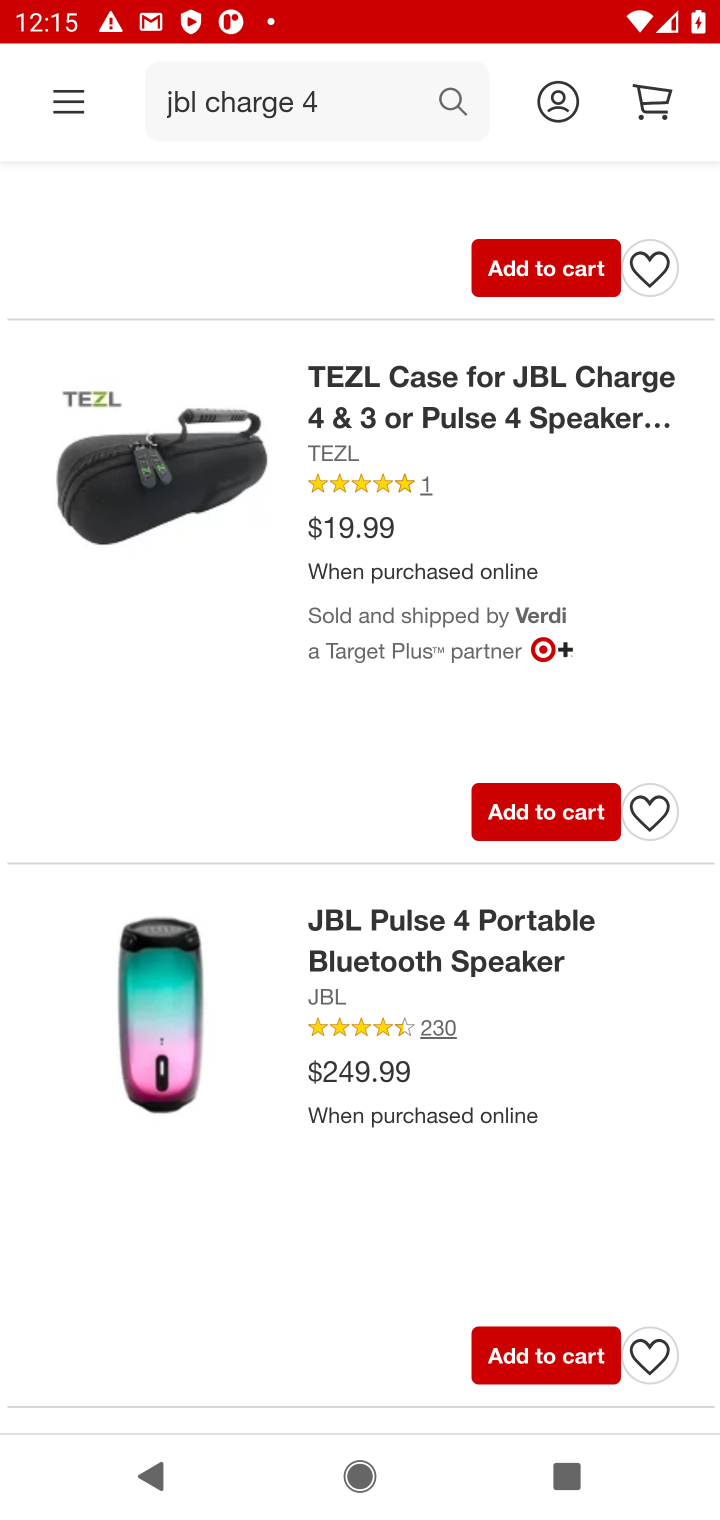
Step 25: click (389, 911)
Your task to perform on an android device: View the shopping cart on target. Add jbl charge 4 to the cart on target Image 26: 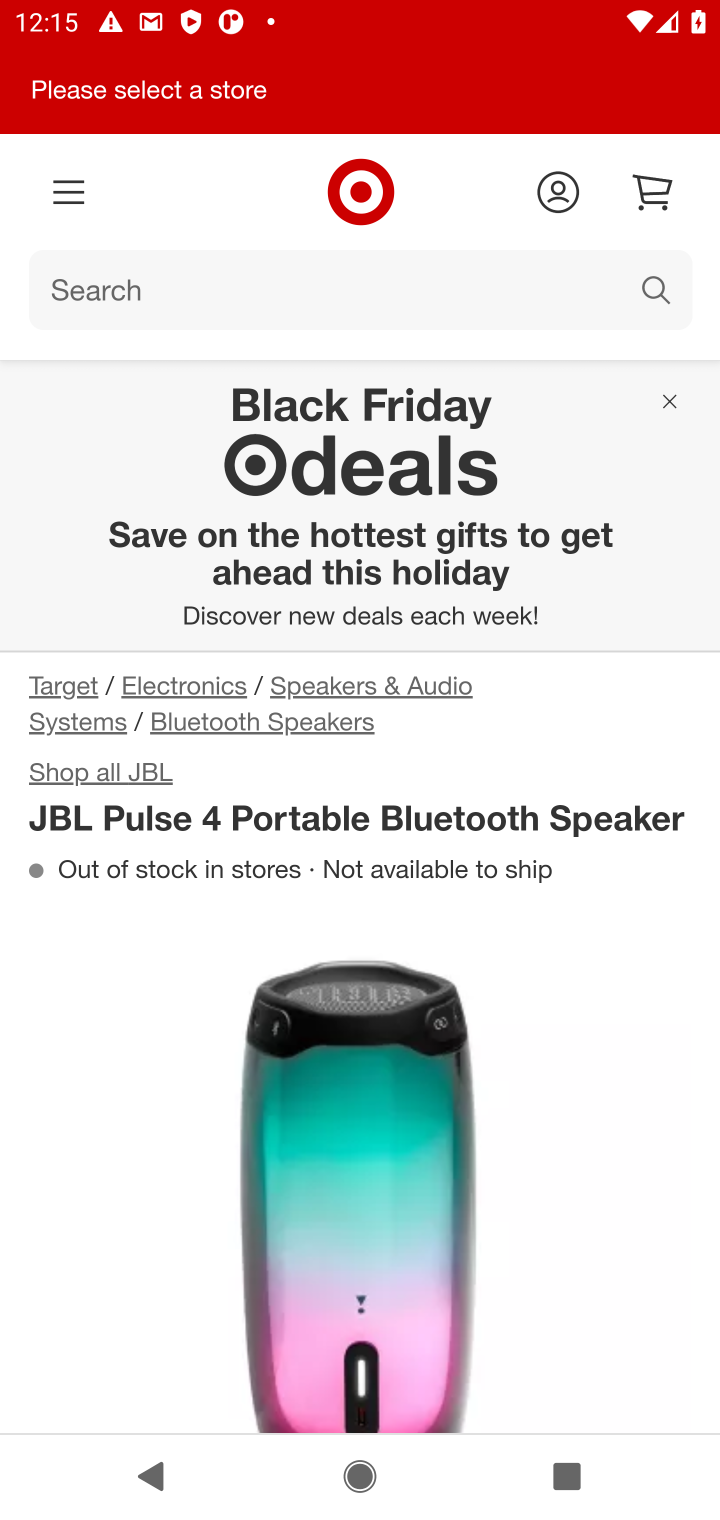
Step 26: drag from (478, 1001) to (480, 651)
Your task to perform on an android device: View the shopping cart on target. Add jbl charge 4 to the cart on target Image 27: 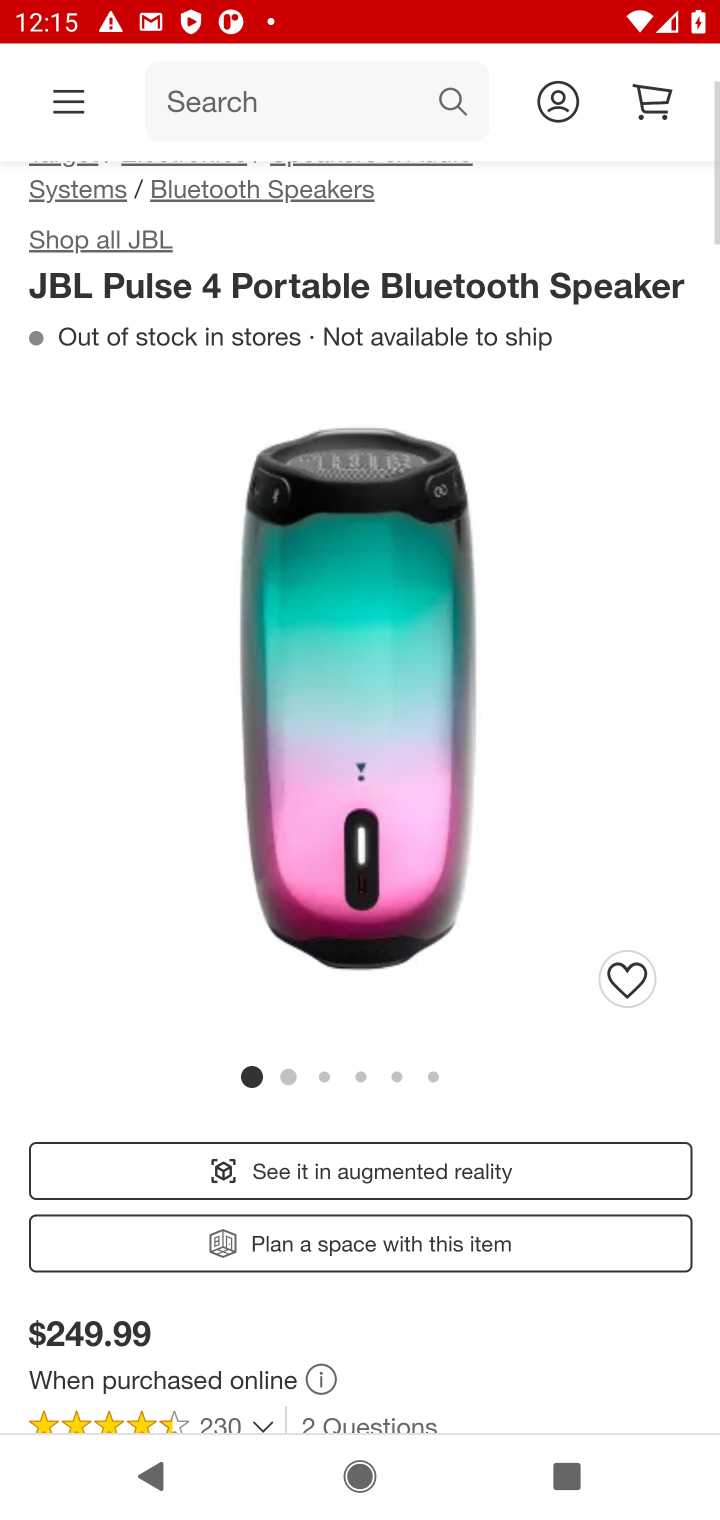
Step 27: drag from (483, 1065) to (471, 729)
Your task to perform on an android device: View the shopping cart on target. Add jbl charge 4 to the cart on target Image 28: 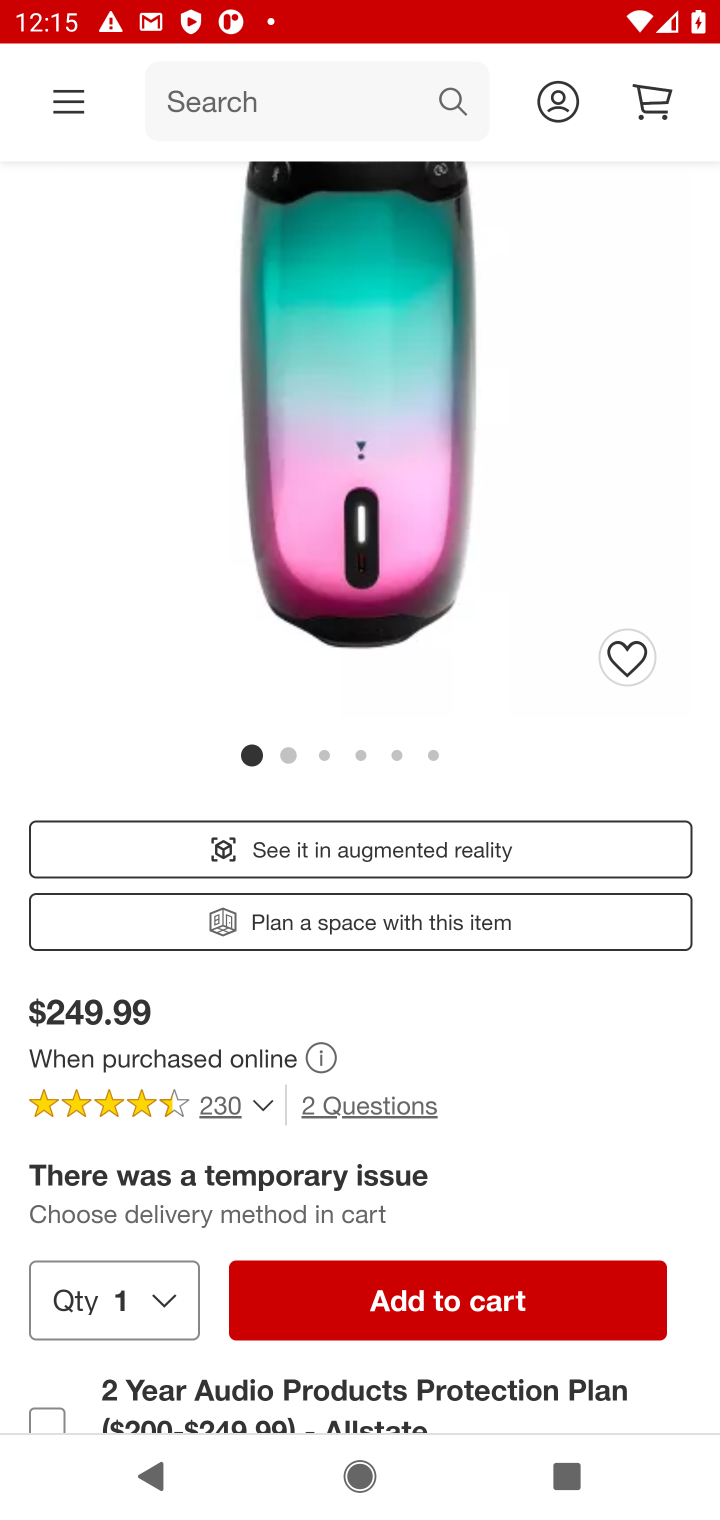
Step 28: click (491, 1280)
Your task to perform on an android device: View the shopping cart on target. Add jbl charge 4 to the cart on target Image 29: 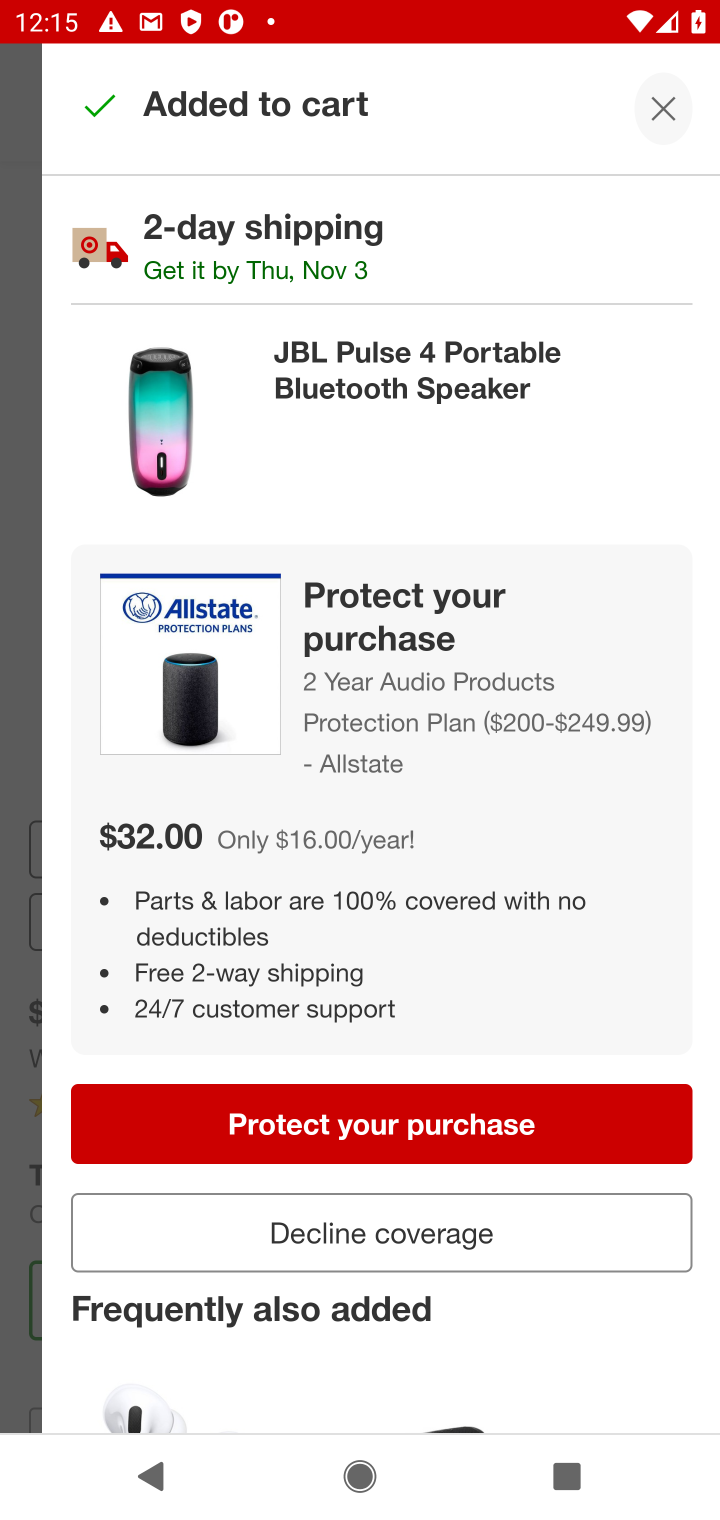
Step 29: click (424, 1239)
Your task to perform on an android device: View the shopping cart on target. Add jbl charge 4 to the cart on target Image 30: 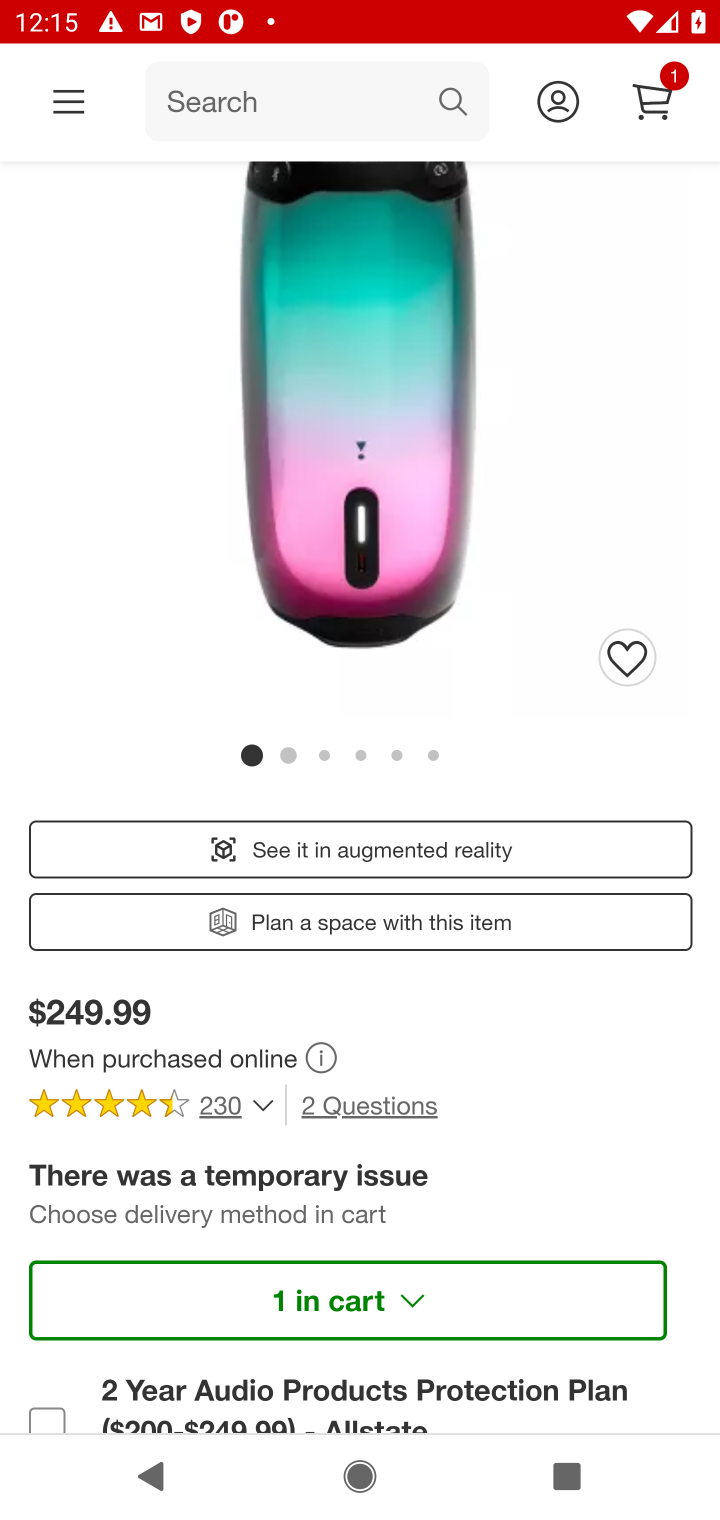
Step 30: click (644, 97)
Your task to perform on an android device: View the shopping cart on target. Add jbl charge 4 to the cart on target Image 31: 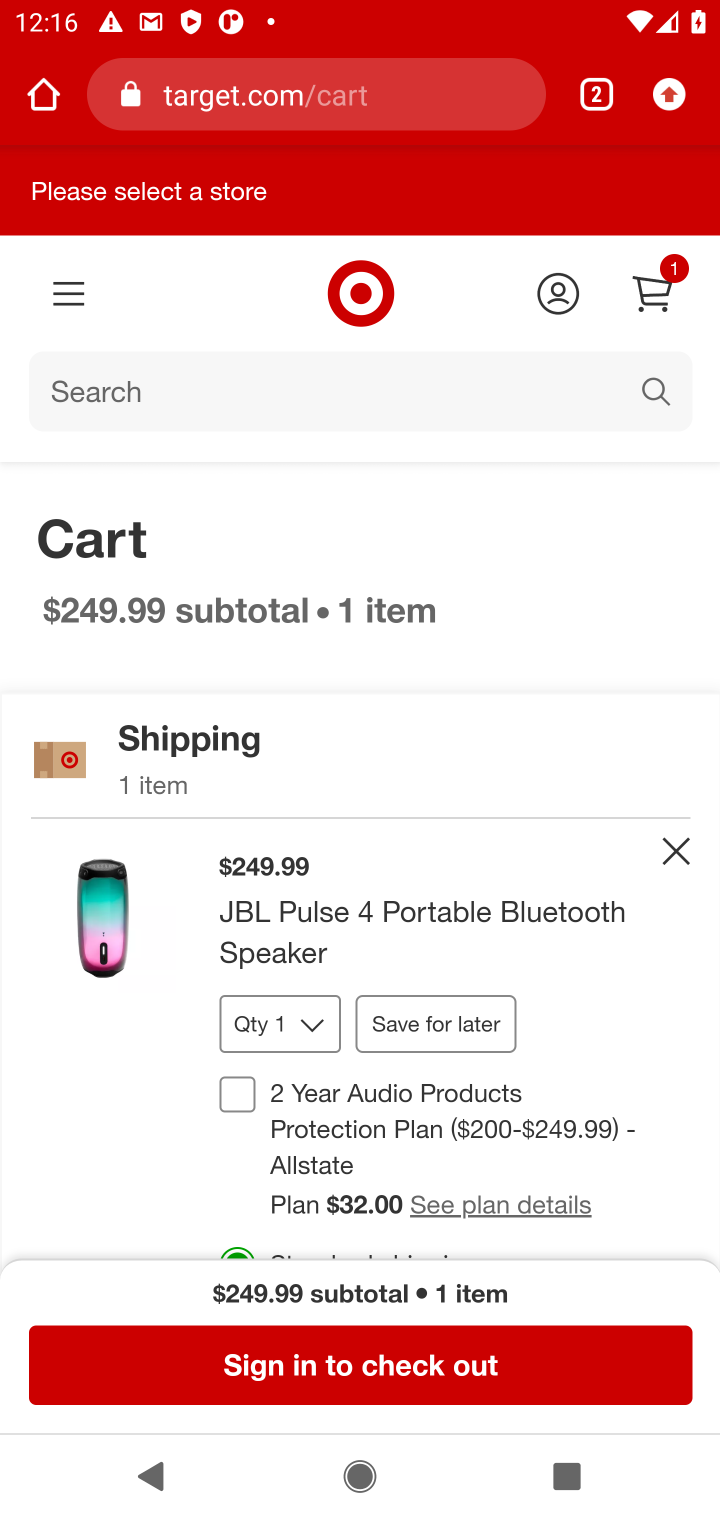
Step 31: click (238, 1337)
Your task to perform on an android device: View the shopping cart on target. Add jbl charge 4 to the cart on target Image 32: 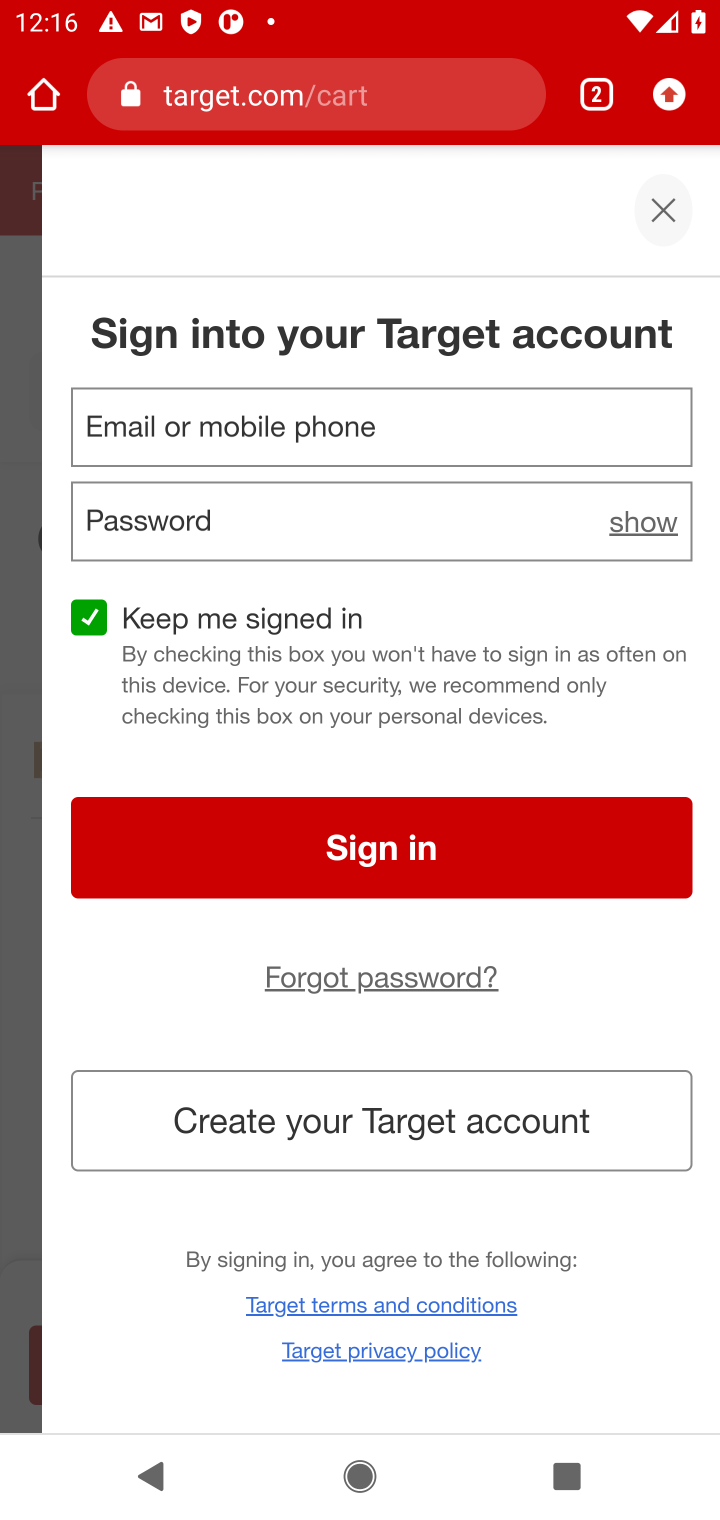
Step 32: click (646, 224)
Your task to perform on an android device: View the shopping cart on target. Add jbl charge 4 to the cart on target Image 33: 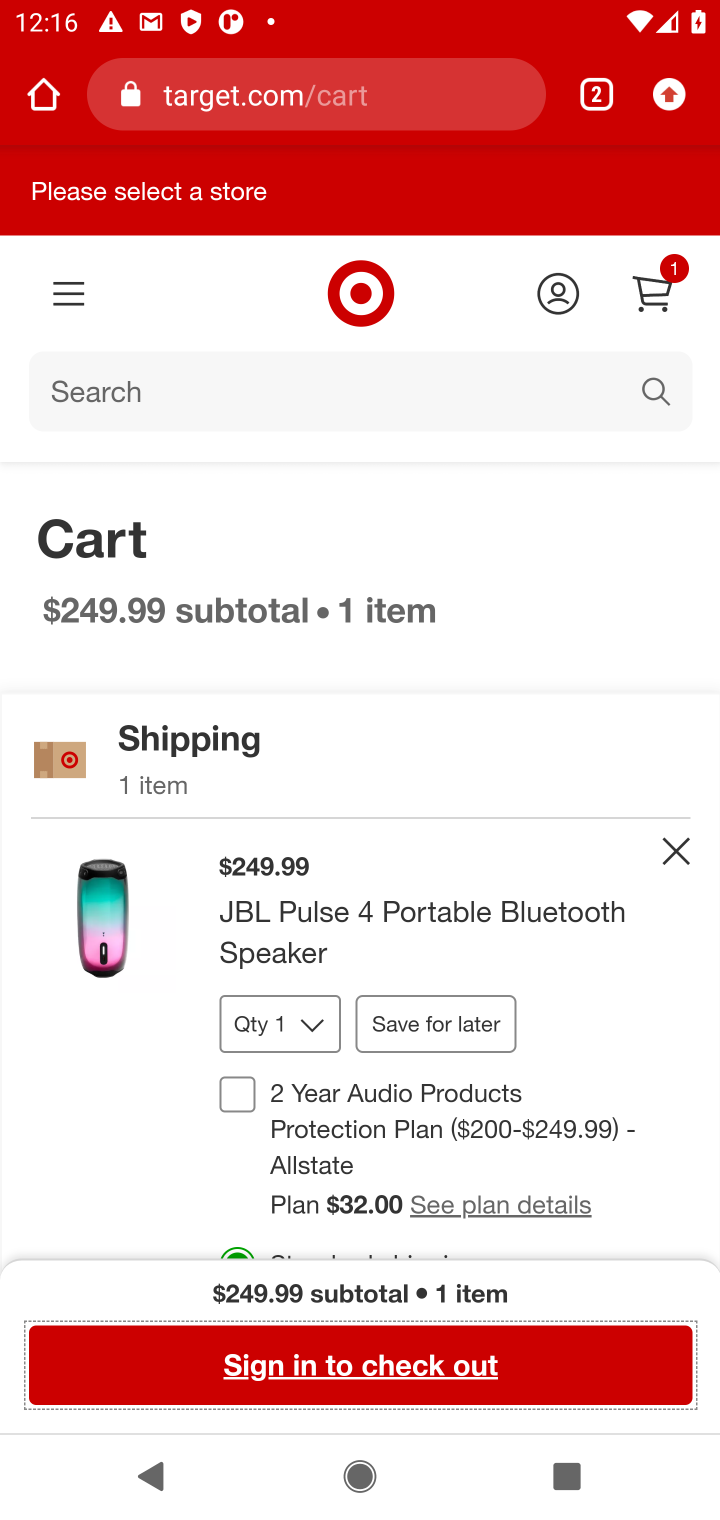
Step 33: task complete